Your task to perform on an android device: Search for flights from Sydney to Buenos aires Image 0: 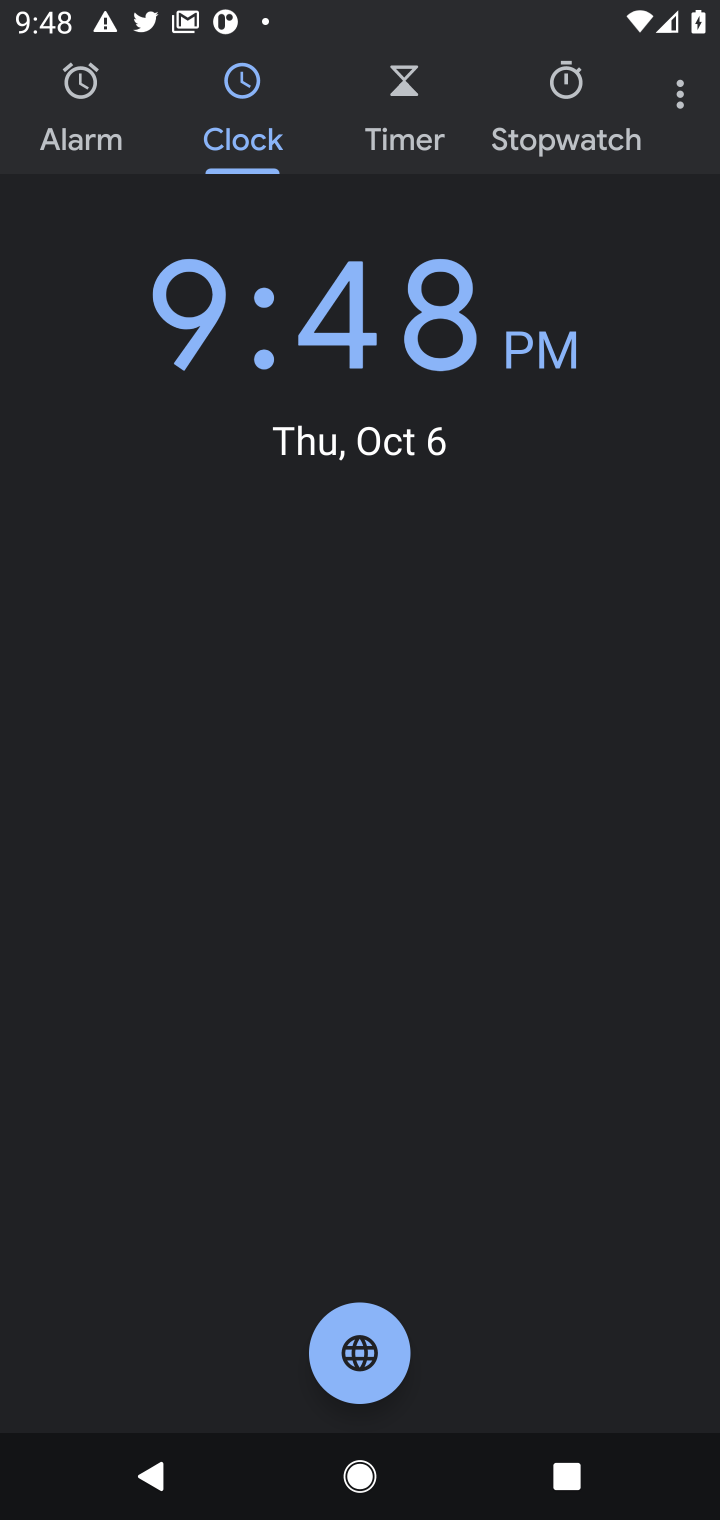
Step 0: press home button
Your task to perform on an android device: Search for flights from Sydney to Buenos aires Image 1: 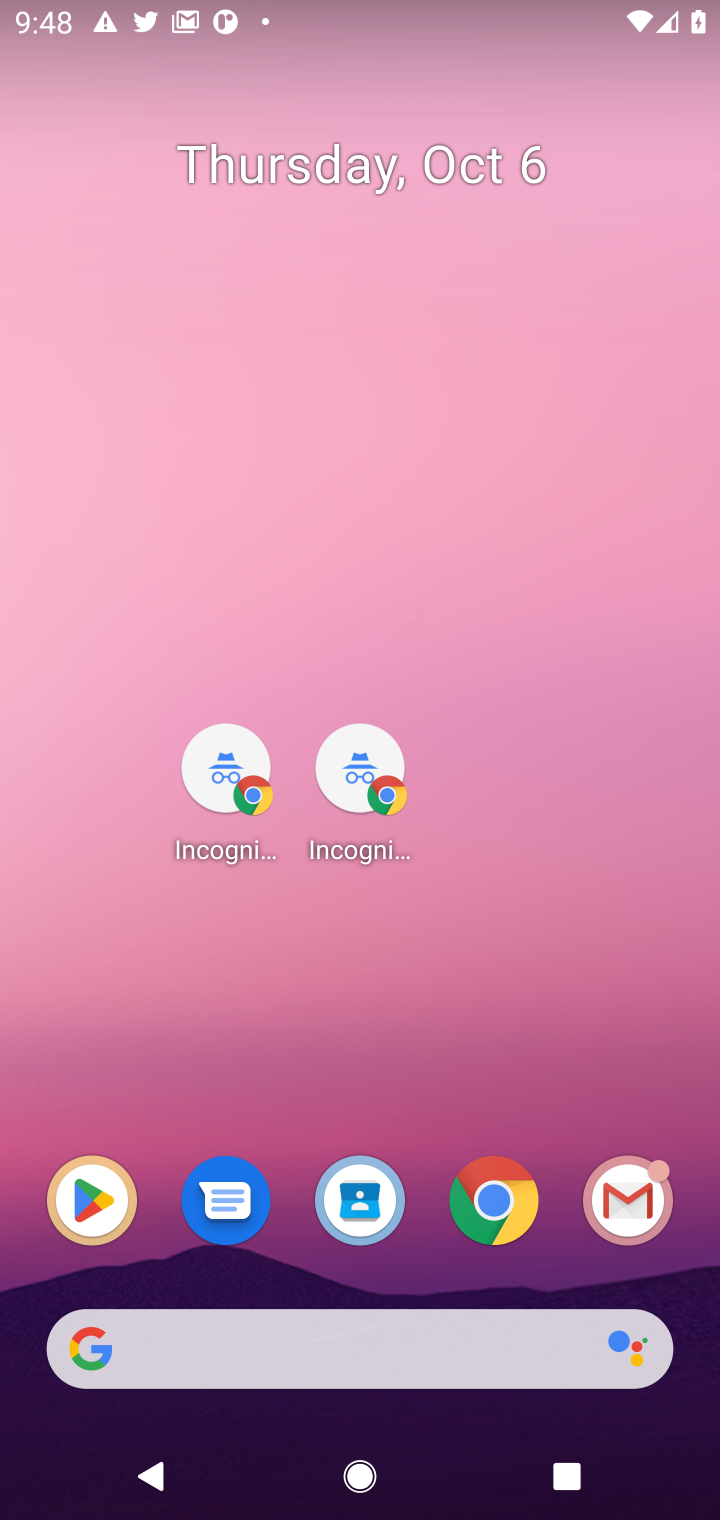
Step 1: click (517, 1206)
Your task to perform on an android device: Search for flights from Sydney to Buenos aires Image 2: 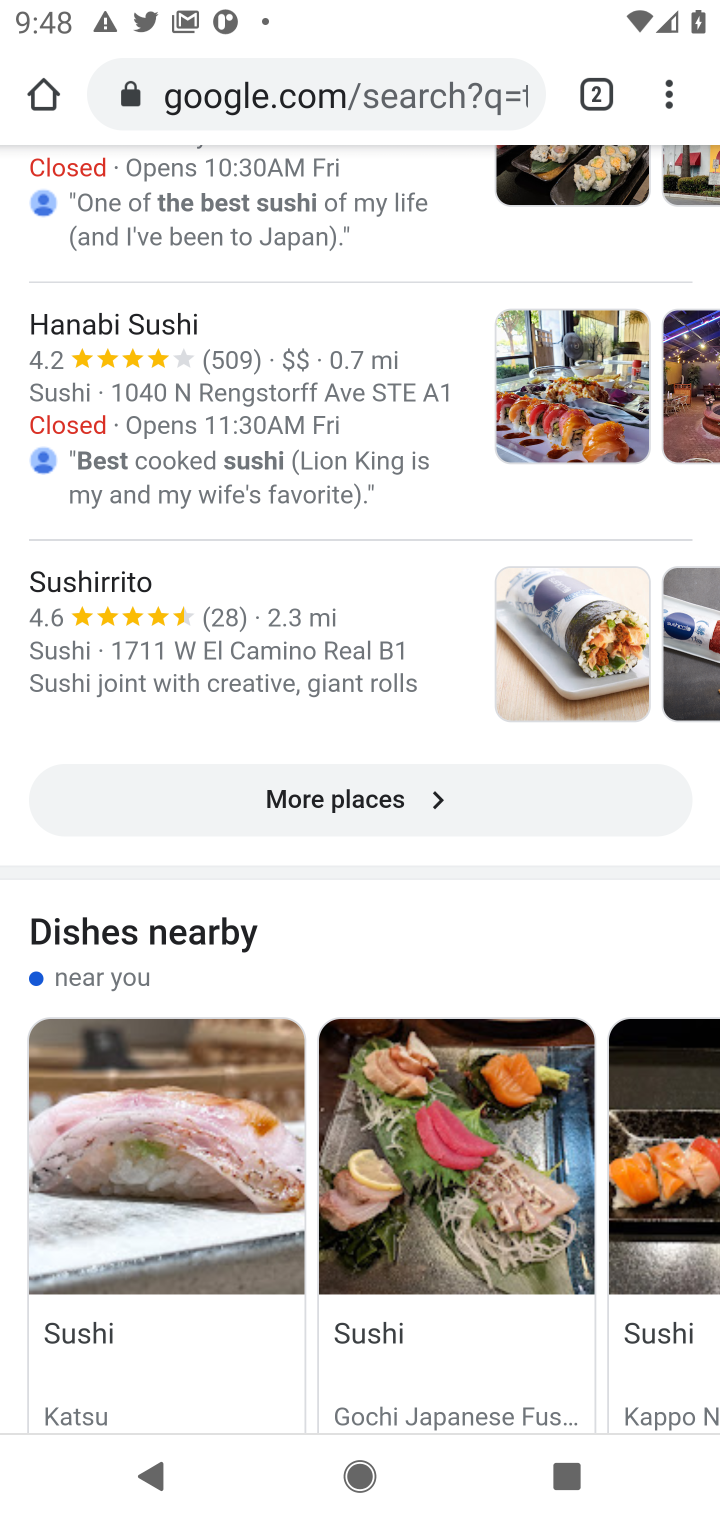
Step 2: click (240, 93)
Your task to perform on an android device: Search for flights from Sydney to Buenos aires Image 3: 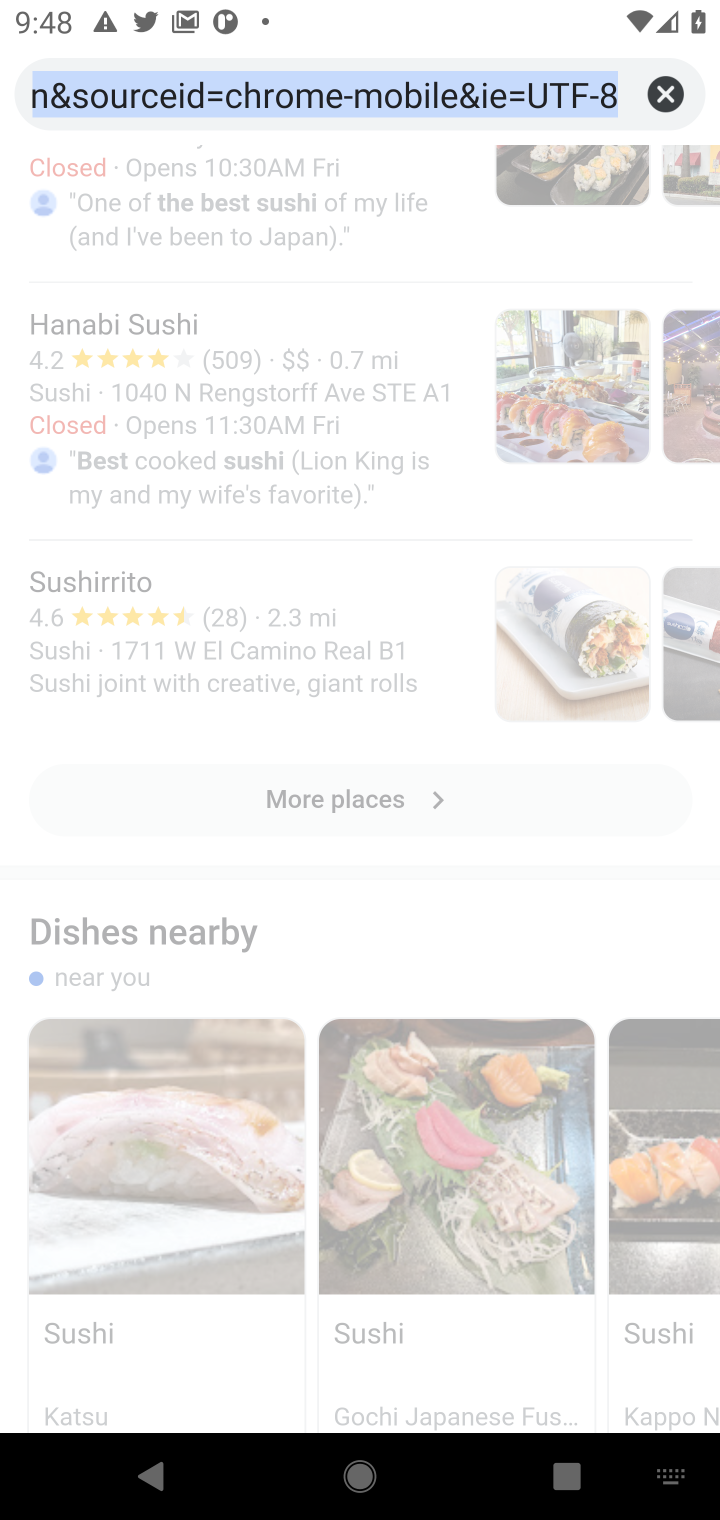
Step 3: click (665, 103)
Your task to perform on an android device: Search for flights from Sydney to Buenos aires Image 4: 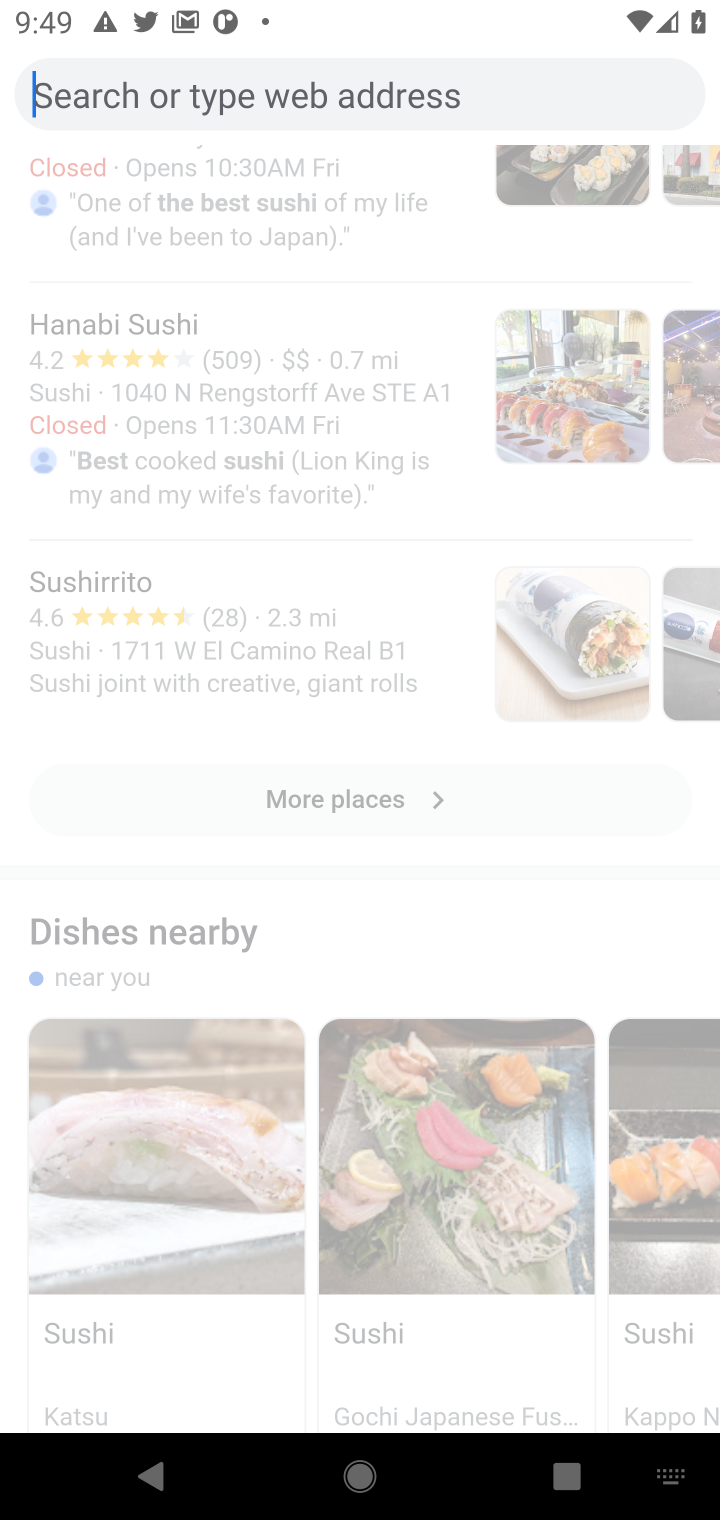
Step 4: type "flight from sydney to buenos aires"
Your task to perform on an android device: Search for flights from Sydney to Buenos aires Image 5: 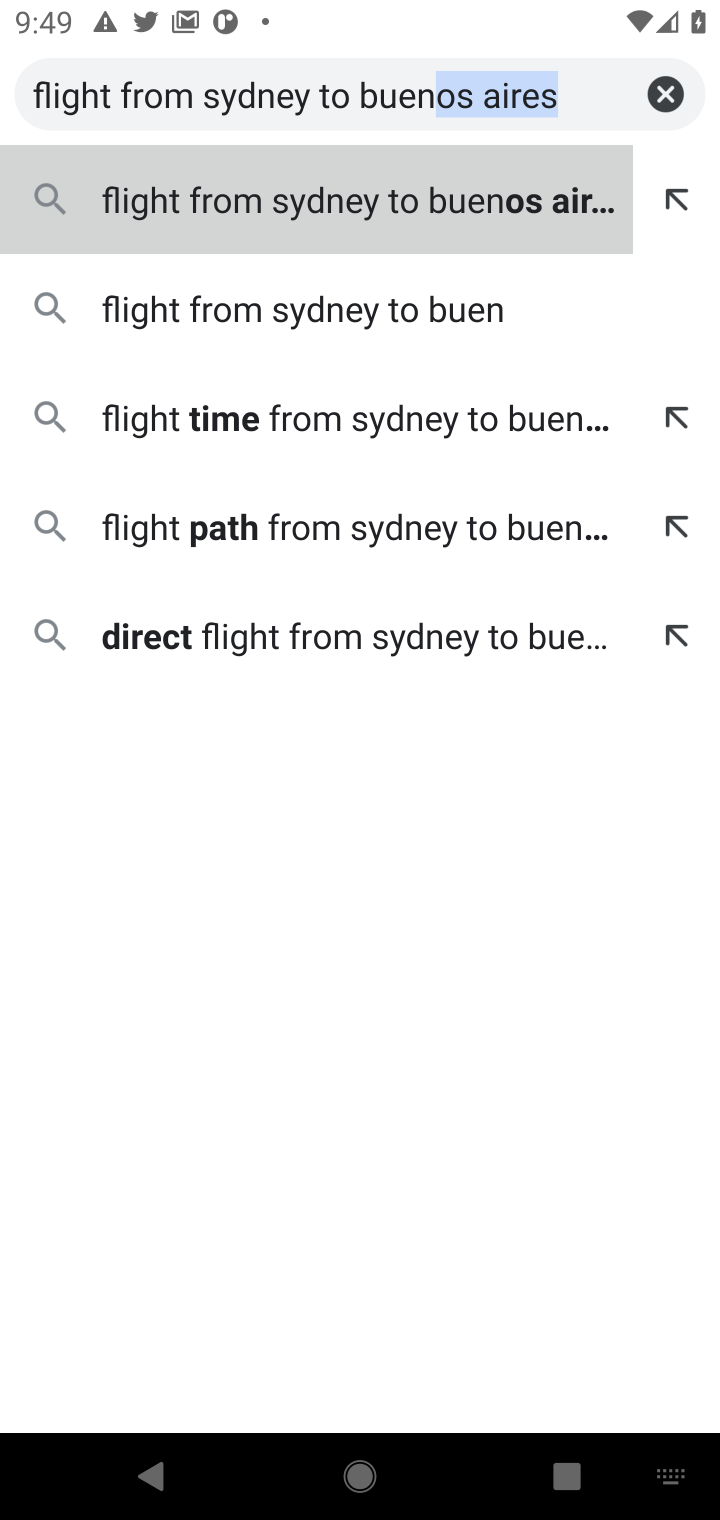
Step 5: click (394, 215)
Your task to perform on an android device: Search for flights from Sydney to Buenos aires Image 6: 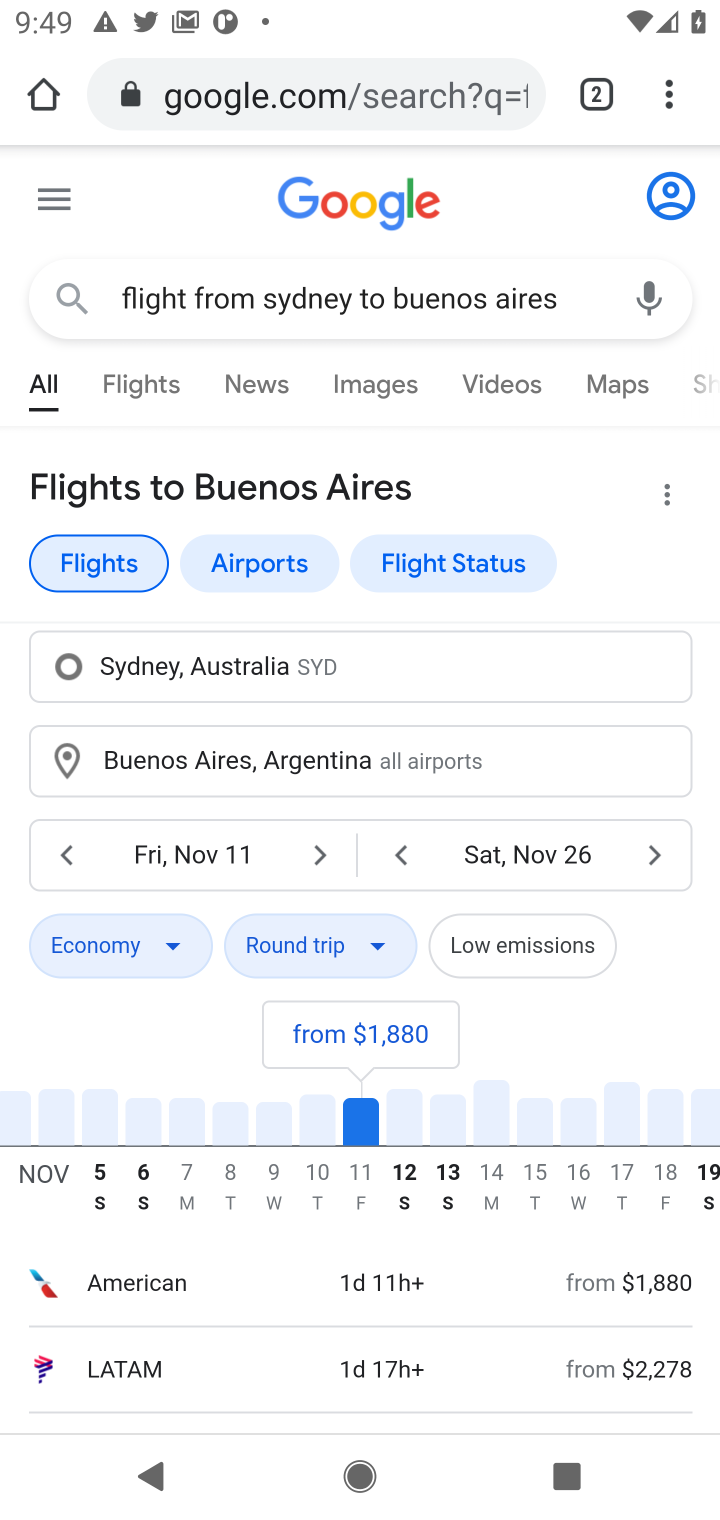
Step 6: click (107, 951)
Your task to perform on an android device: Search for flights from Sydney to Buenos aires Image 7: 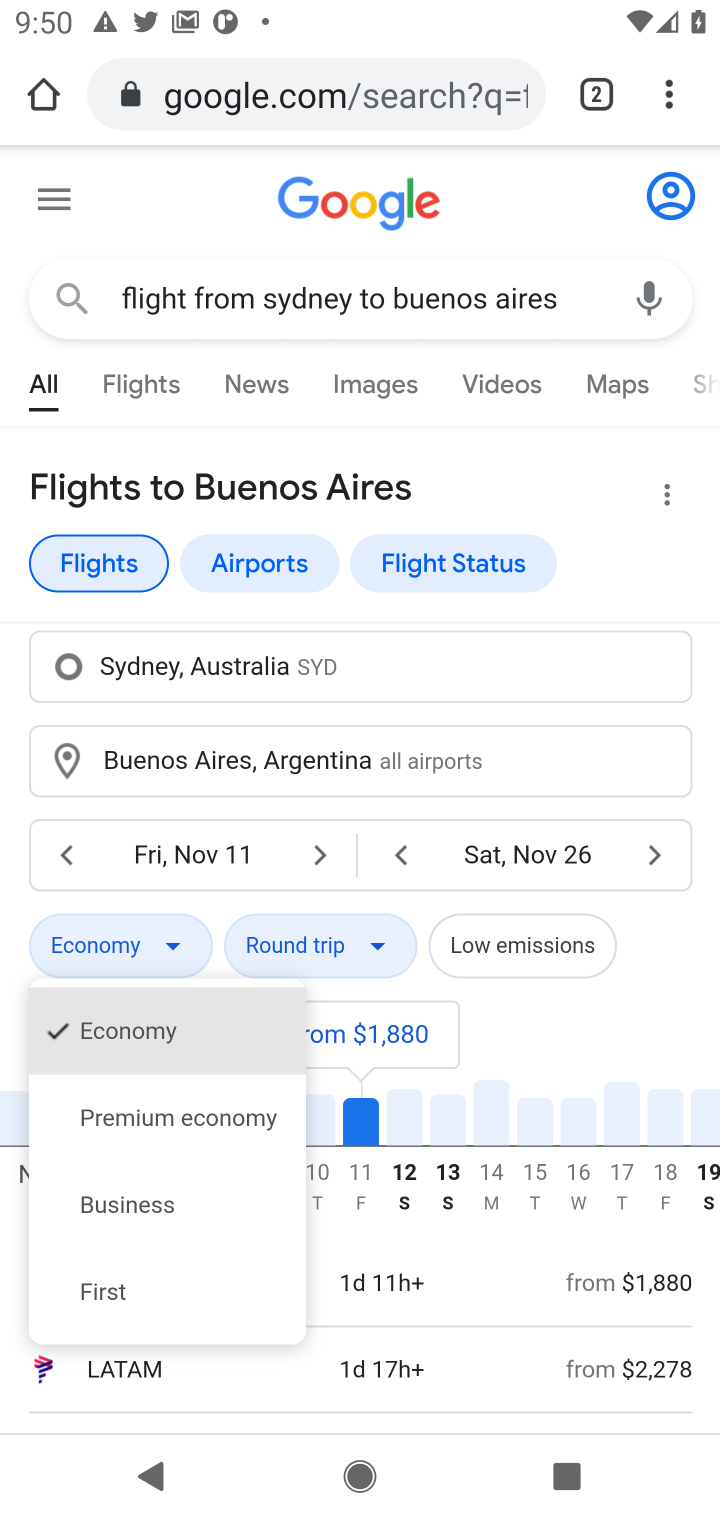
Step 7: click (124, 1030)
Your task to perform on an android device: Search for flights from Sydney to Buenos aires Image 8: 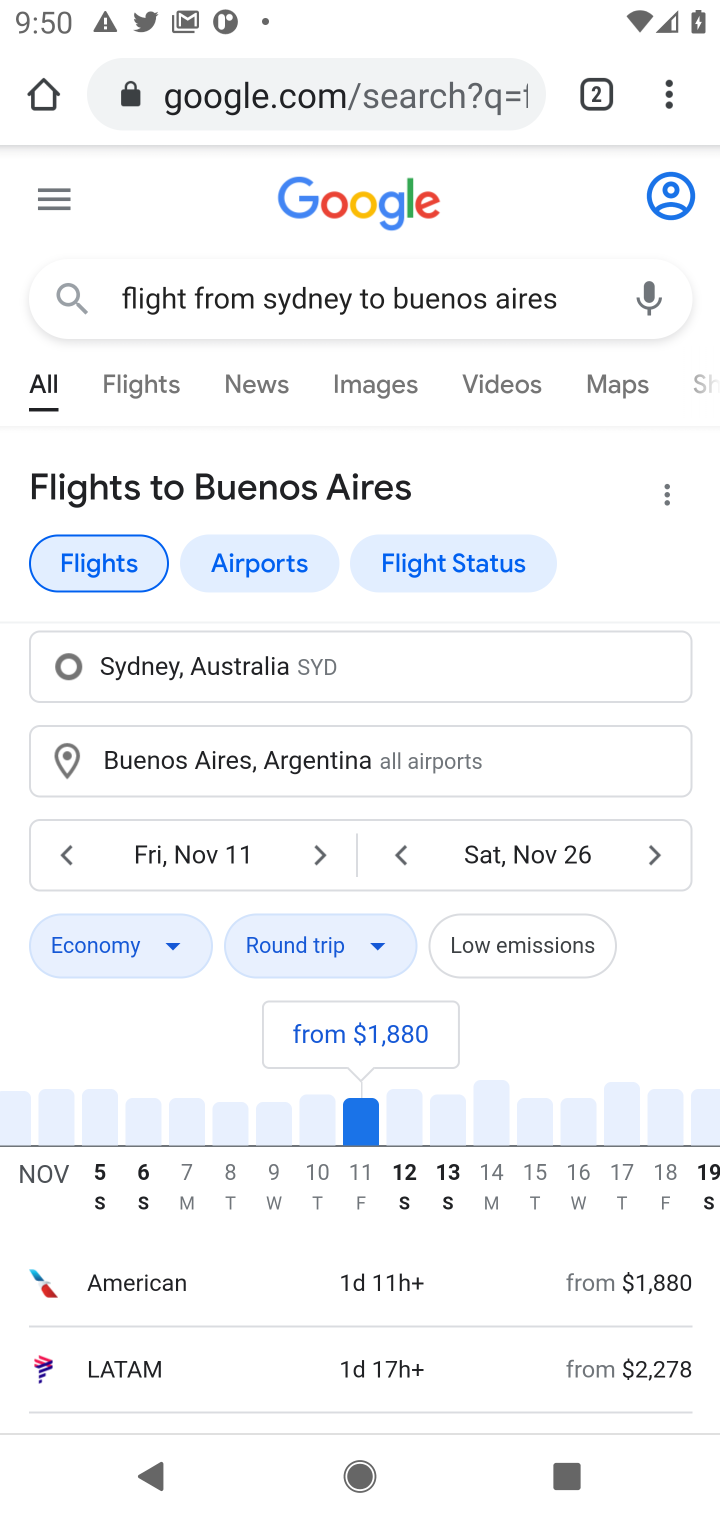
Step 8: drag from (452, 1017) to (540, 521)
Your task to perform on an android device: Search for flights from Sydney to Buenos aires Image 9: 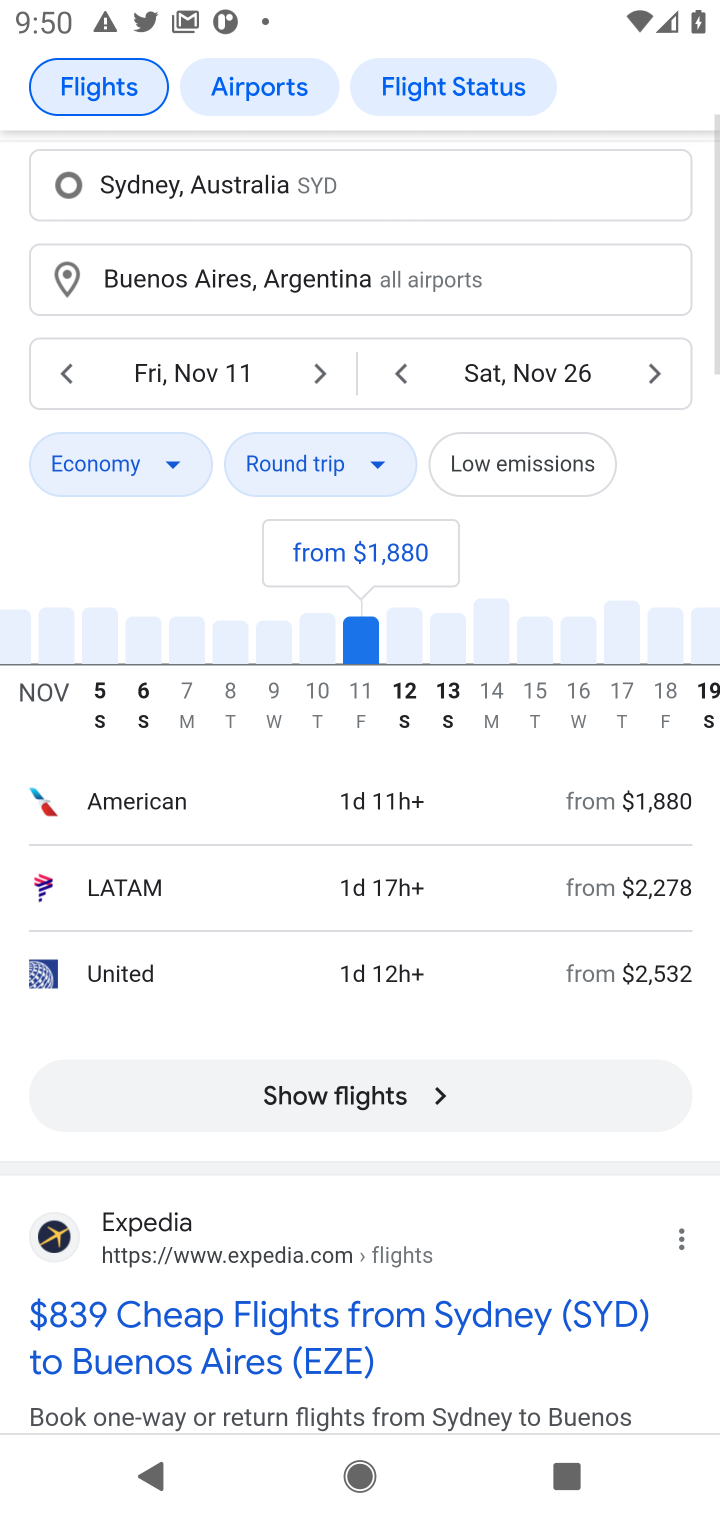
Step 9: drag from (484, 1192) to (553, 576)
Your task to perform on an android device: Search for flights from Sydney to Buenos aires Image 10: 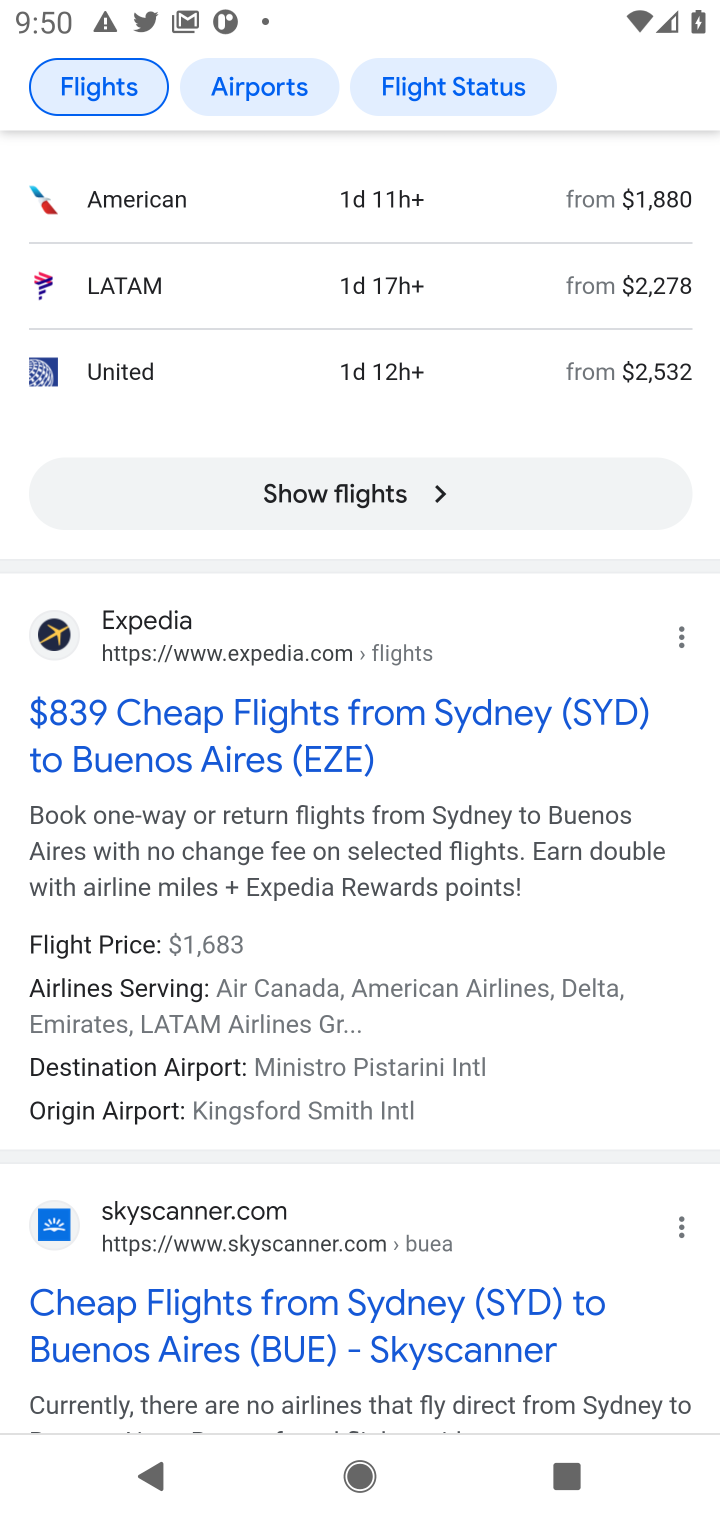
Step 10: drag from (287, 1173) to (342, 660)
Your task to perform on an android device: Search for flights from Sydney to Buenos aires Image 11: 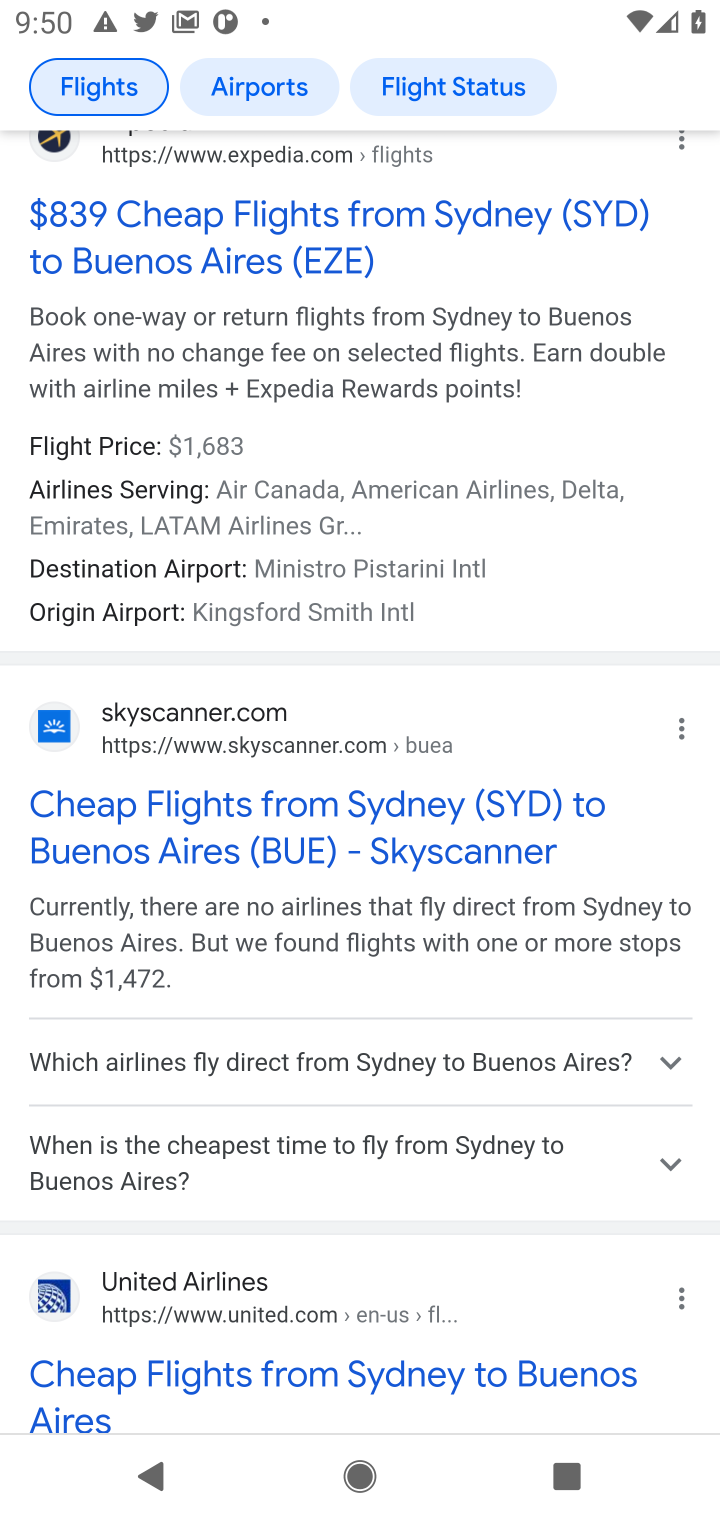
Step 11: click (172, 598)
Your task to perform on an android device: Search for flights from Sydney to Buenos aires Image 12: 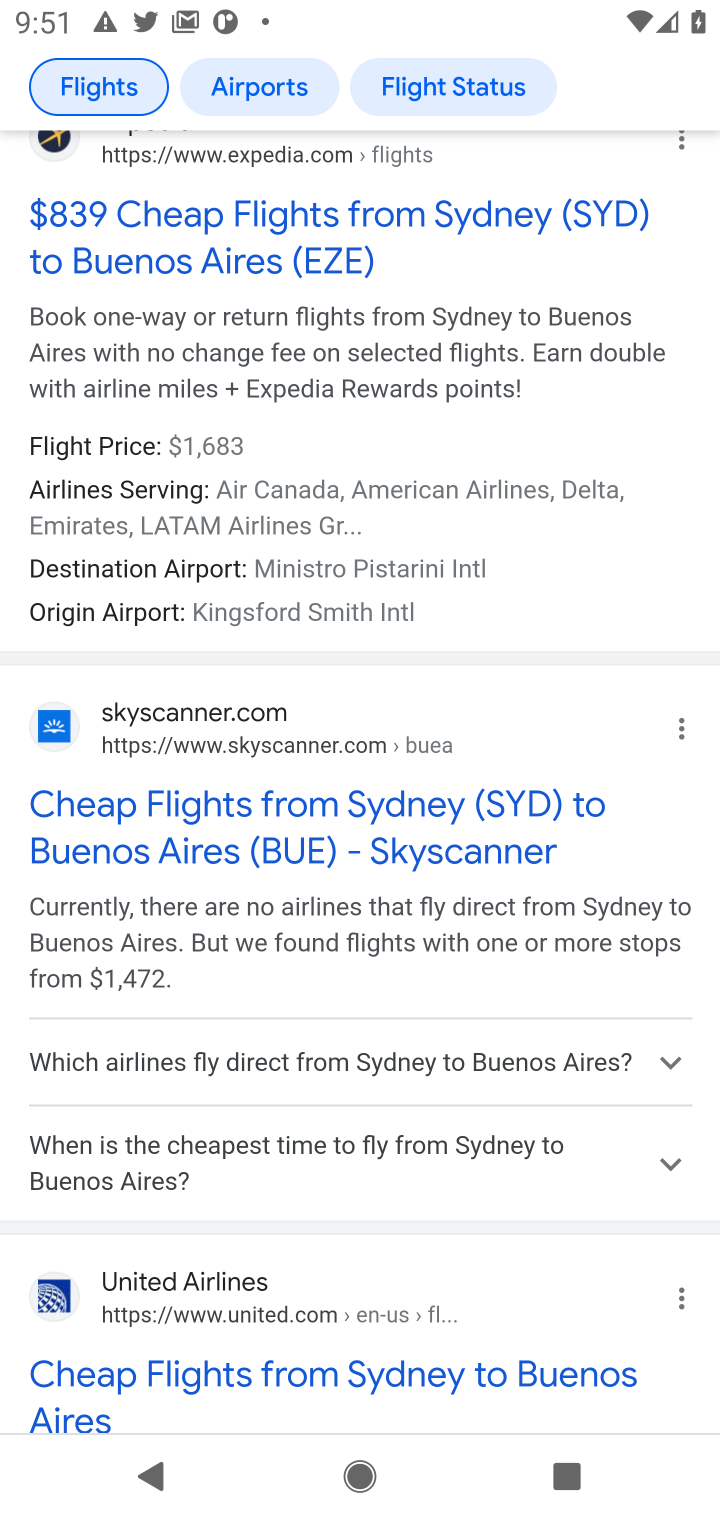
Step 12: click (275, 805)
Your task to perform on an android device: Search for flights from Sydney to Buenos aires Image 13: 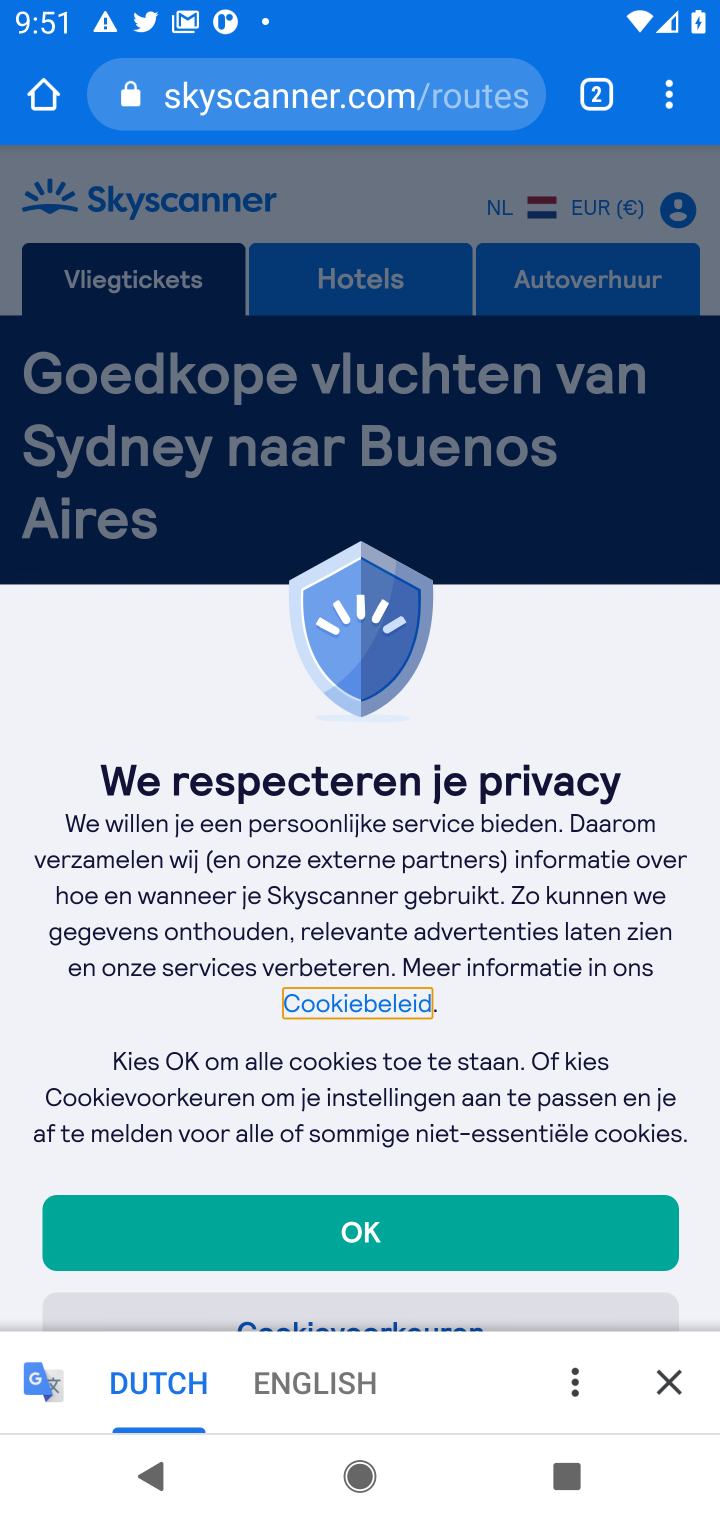
Step 13: click (431, 1242)
Your task to perform on an android device: Search for flights from Sydney to Buenos aires Image 14: 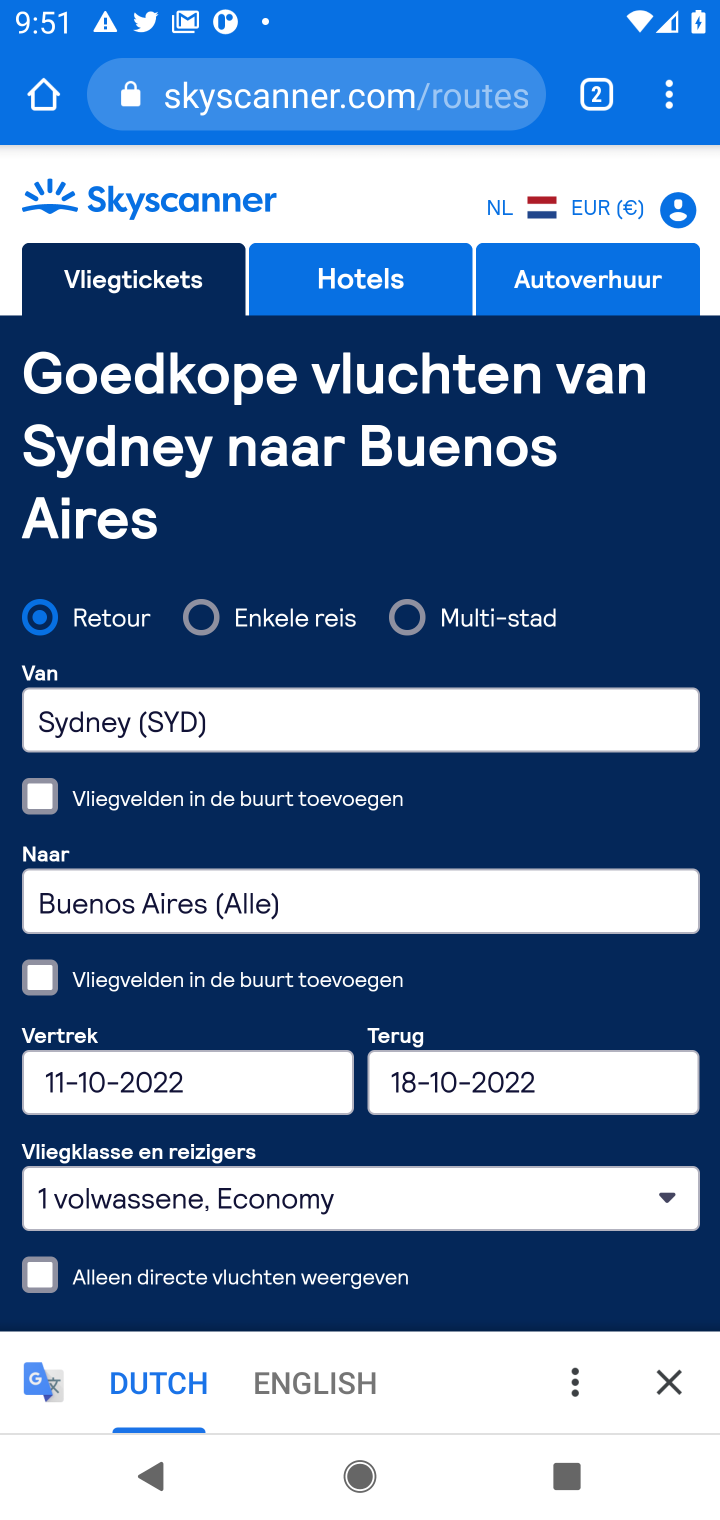
Step 14: drag from (531, 1160) to (543, 749)
Your task to perform on an android device: Search for flights from Sydney to Buenos aires Image 15: 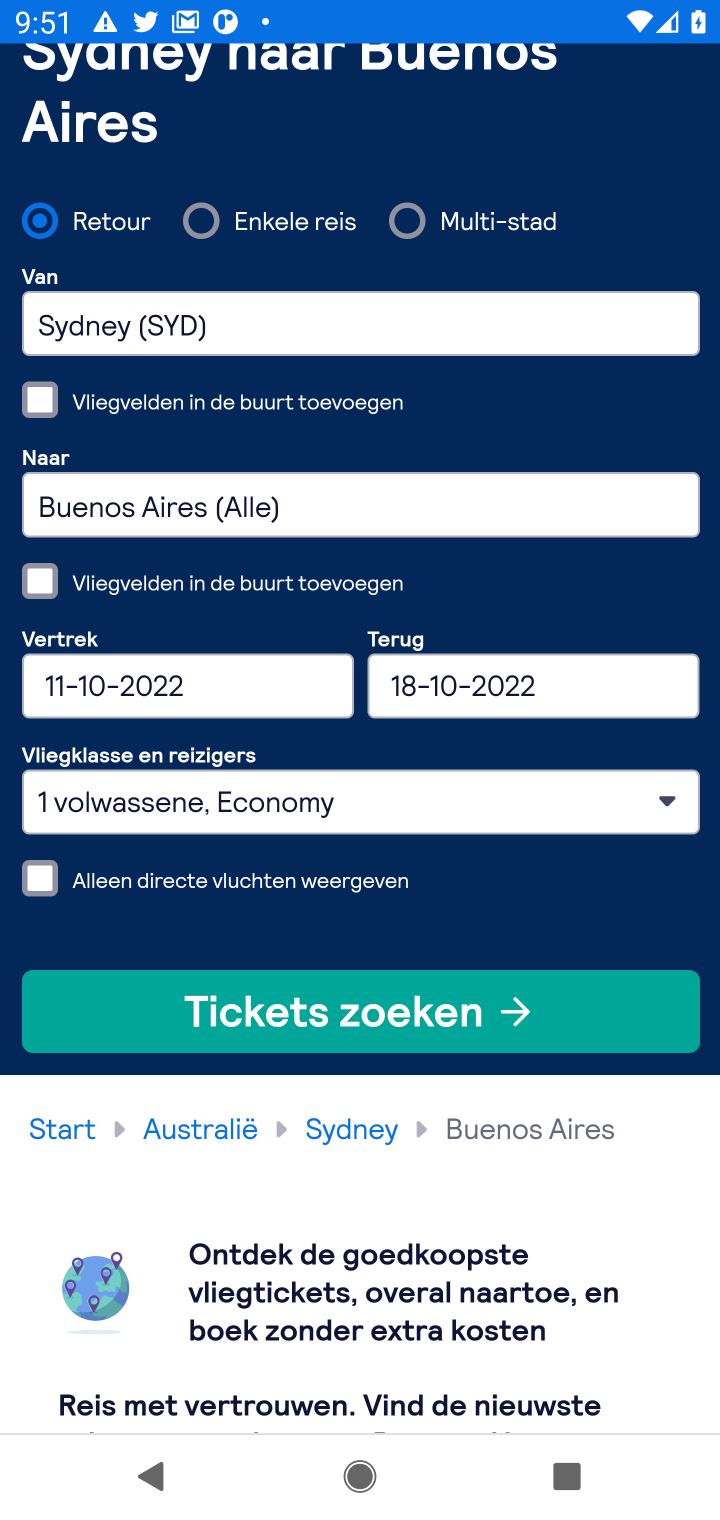
Step 15: click (186, 1016)
Your task to perform on an android device: Search for flights from Sydney to Buenos aires Image 16: 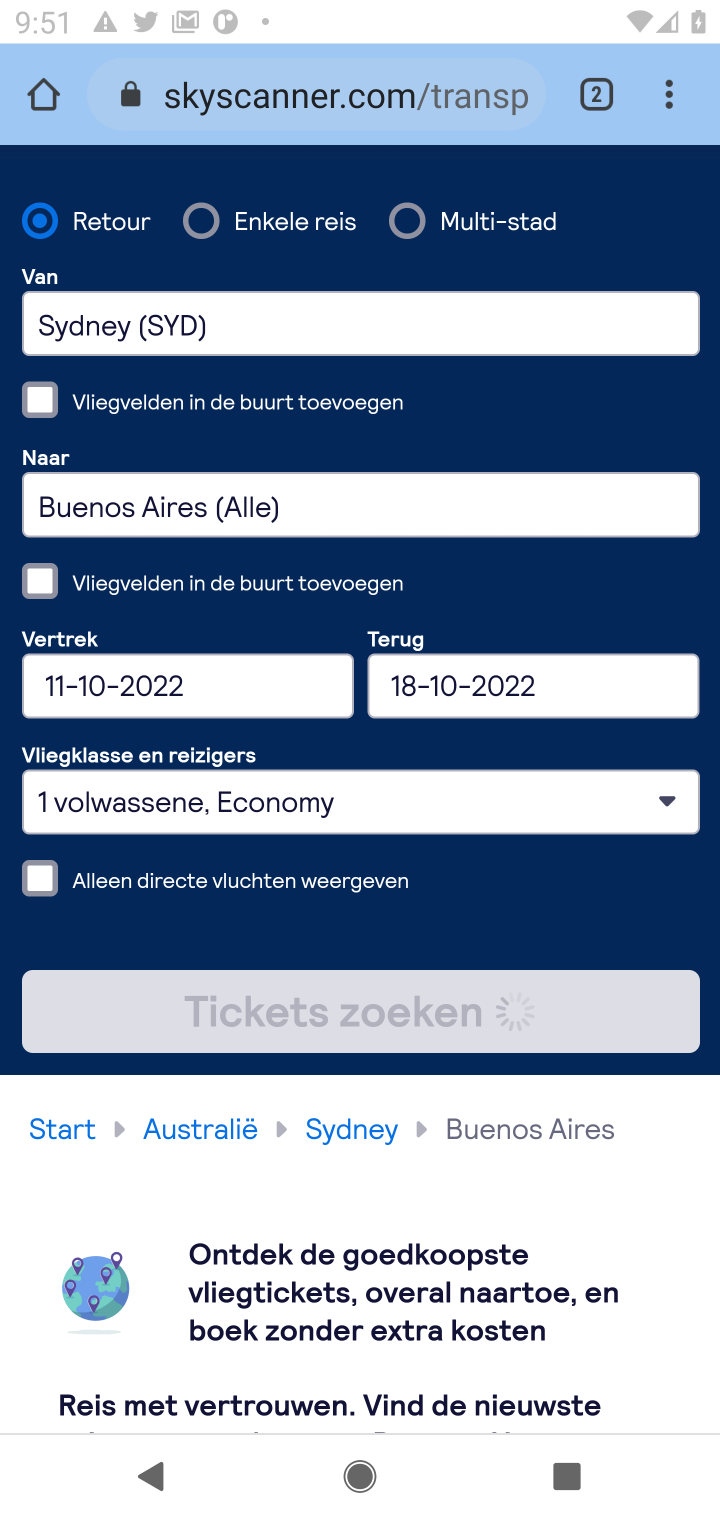
Step 16: type ""
Your task to perform on an android device: Search for flights from Sydney to Buenos aires Image 17: 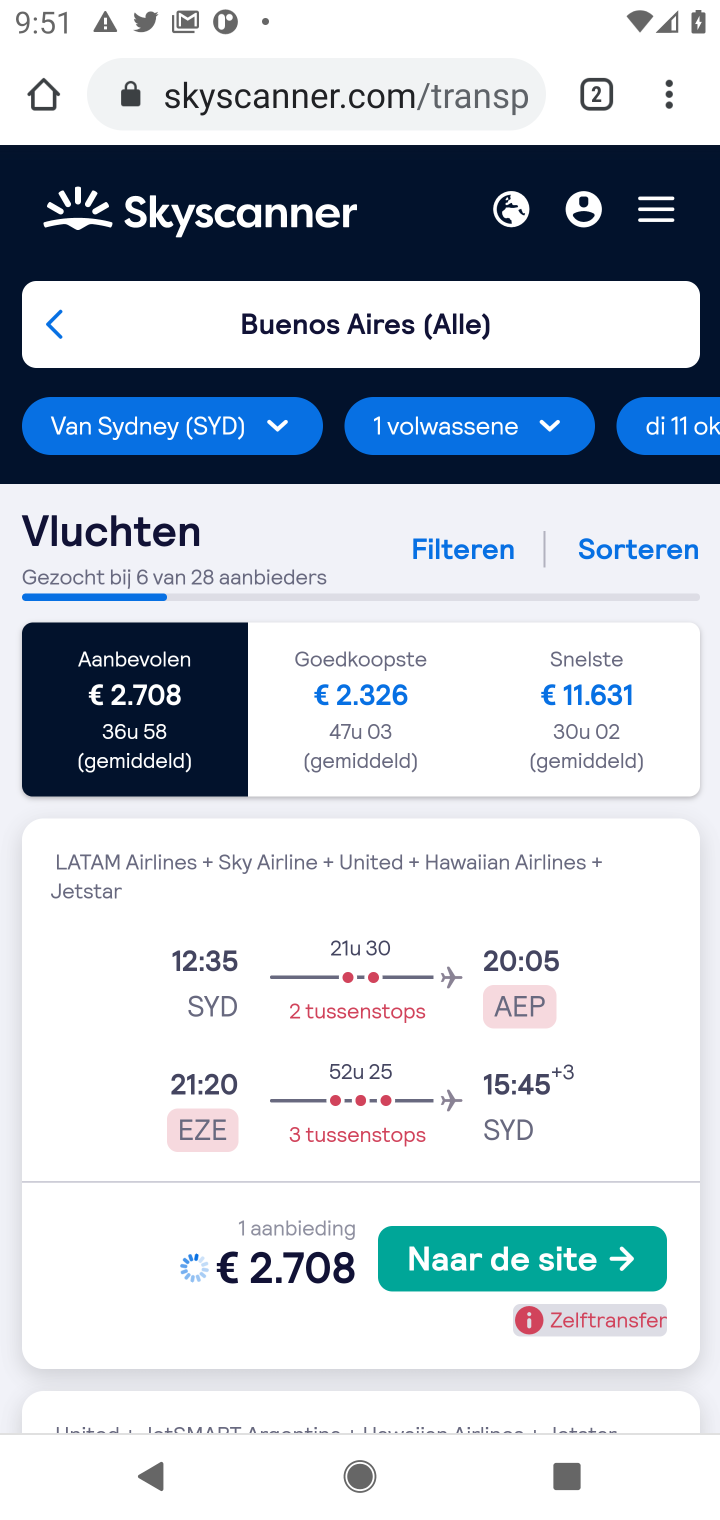
Step 17: drag from (308, 1047) to (409, 625)
Your task to perform on an android device: Search for flights from Sydney to Buenos aires Image 18: 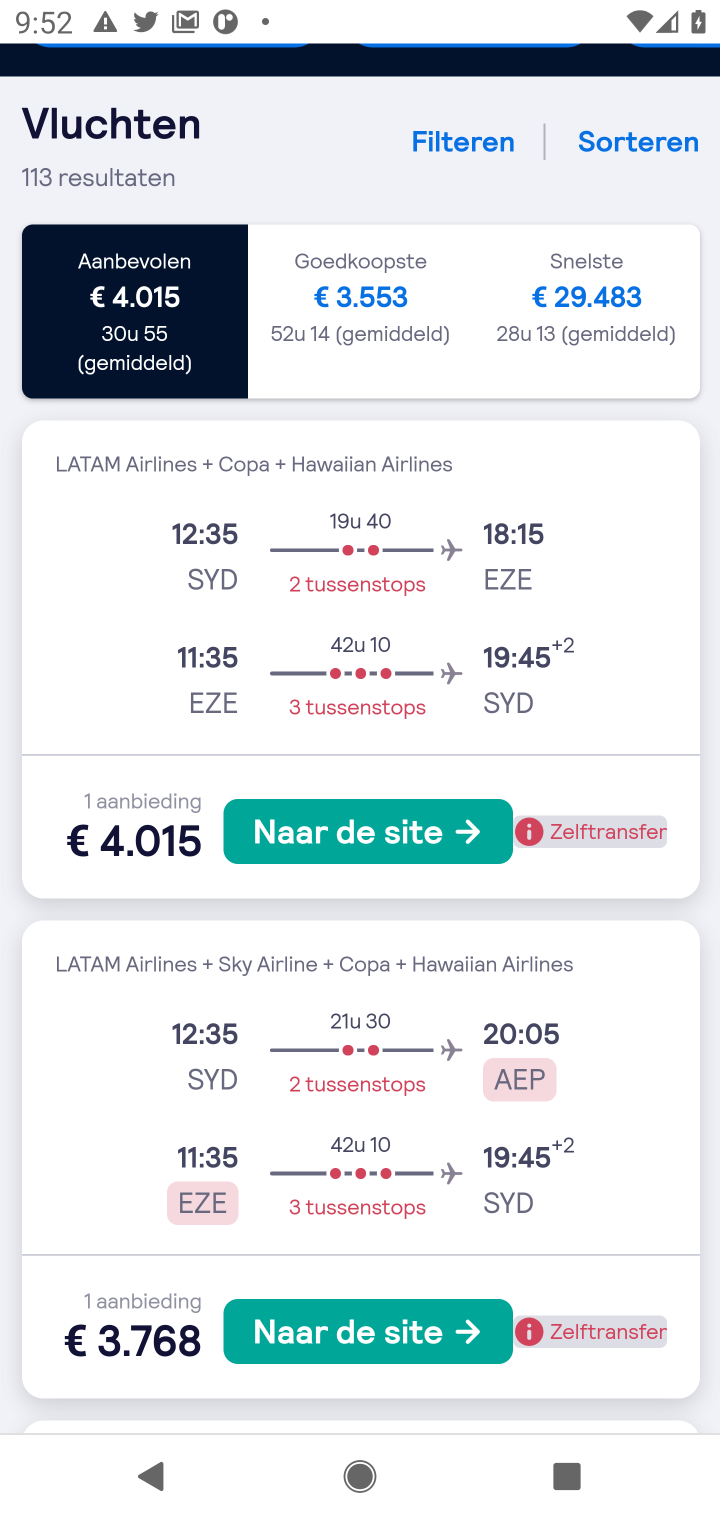
Step 18: press home button
Your task to perform on an android device: Search for flights from Sydney to Buenos aires Image 19: 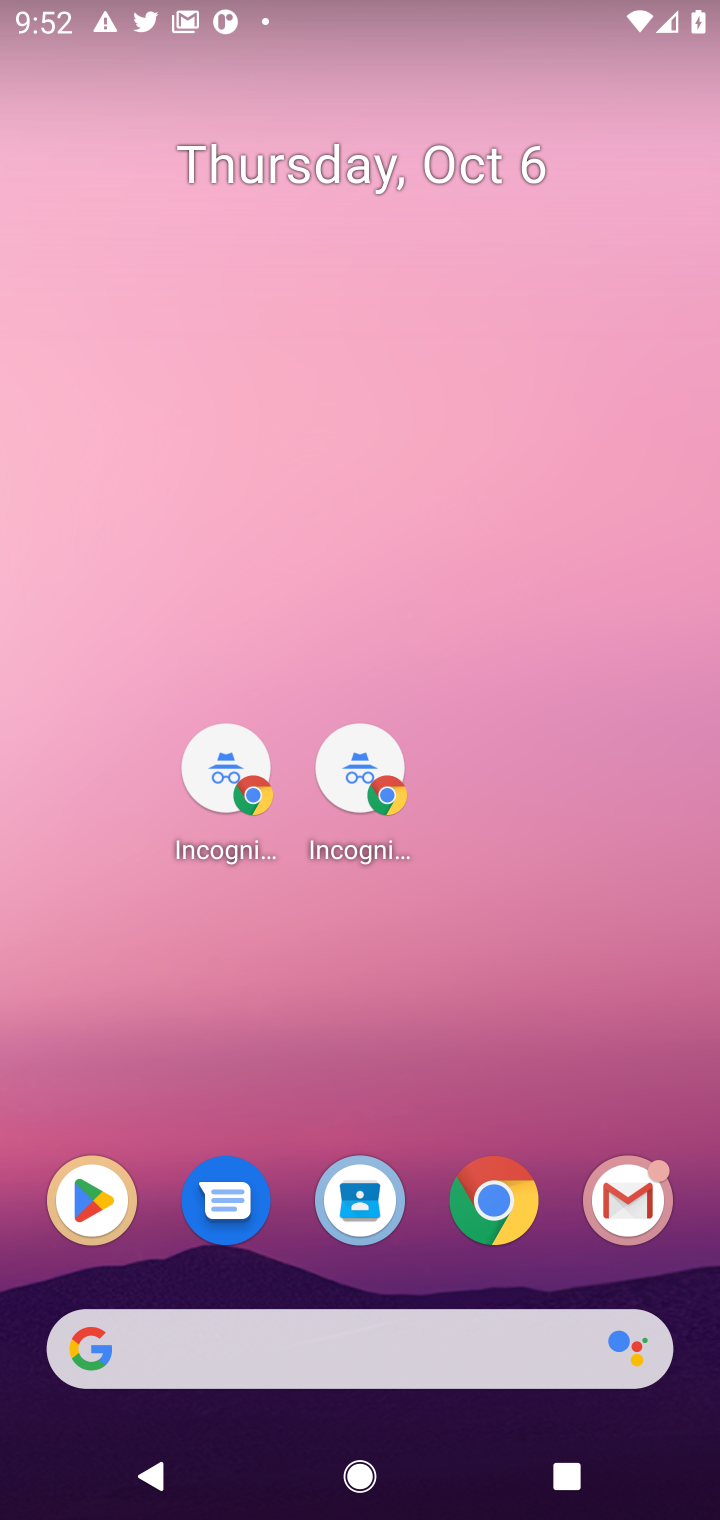
Step 19: press back button
Your task to perform on an android device: Search for flights from Sydney to Buenos aires Image 20: 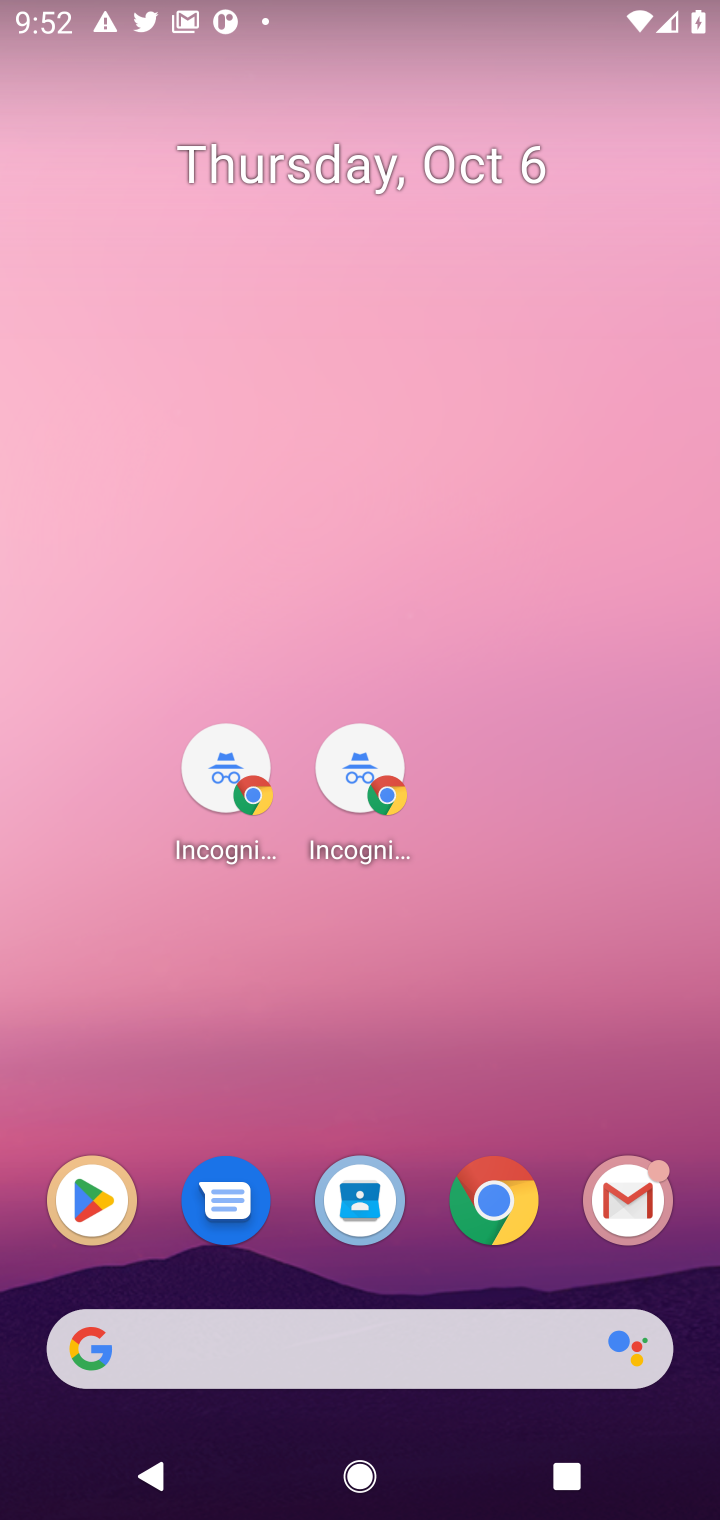
Step 20: click (519, 1205)
Your task to perform on an android device: Search for flights from Sydney to Buenos aires Image 21: 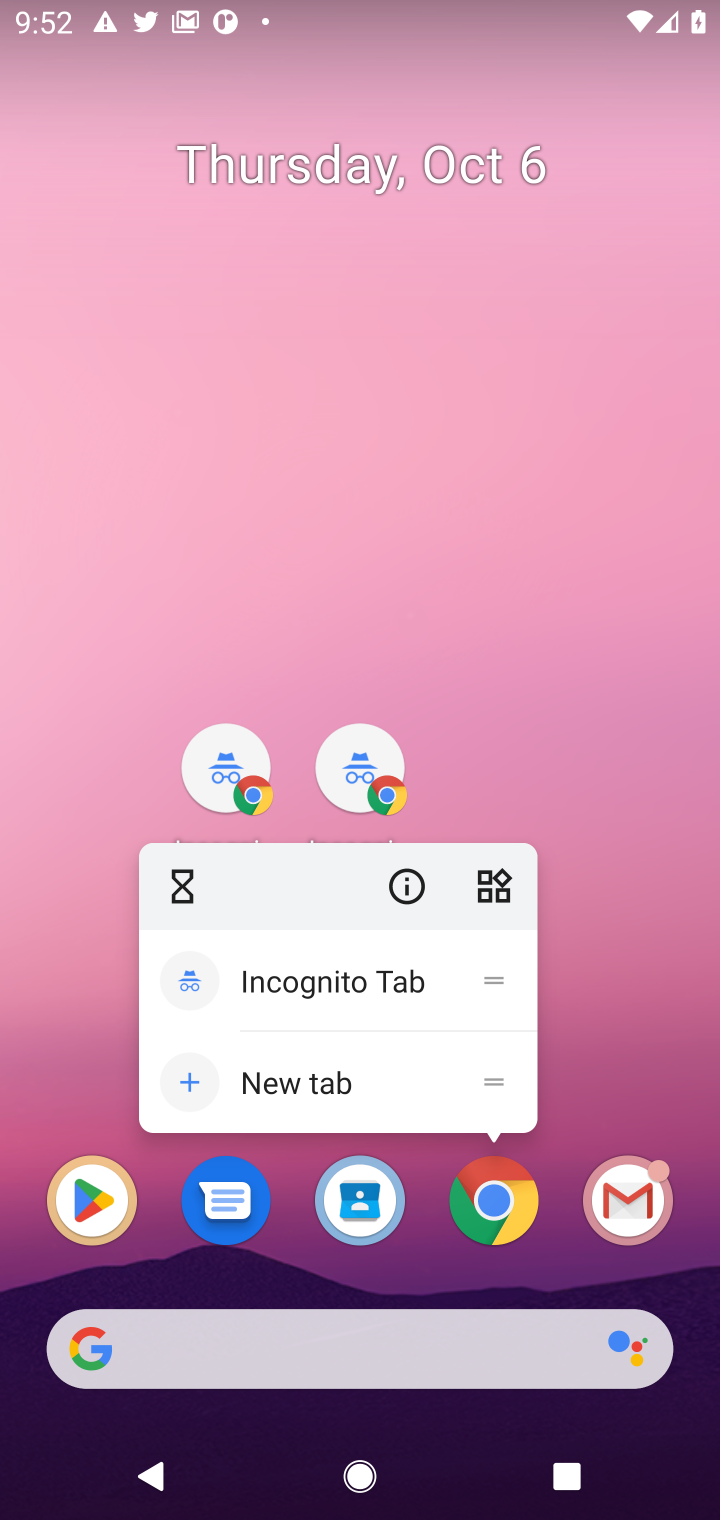
Step 21: press back button
Your task to perform on an android device: Search for flights from Sydney to Buenos aires Image 22: 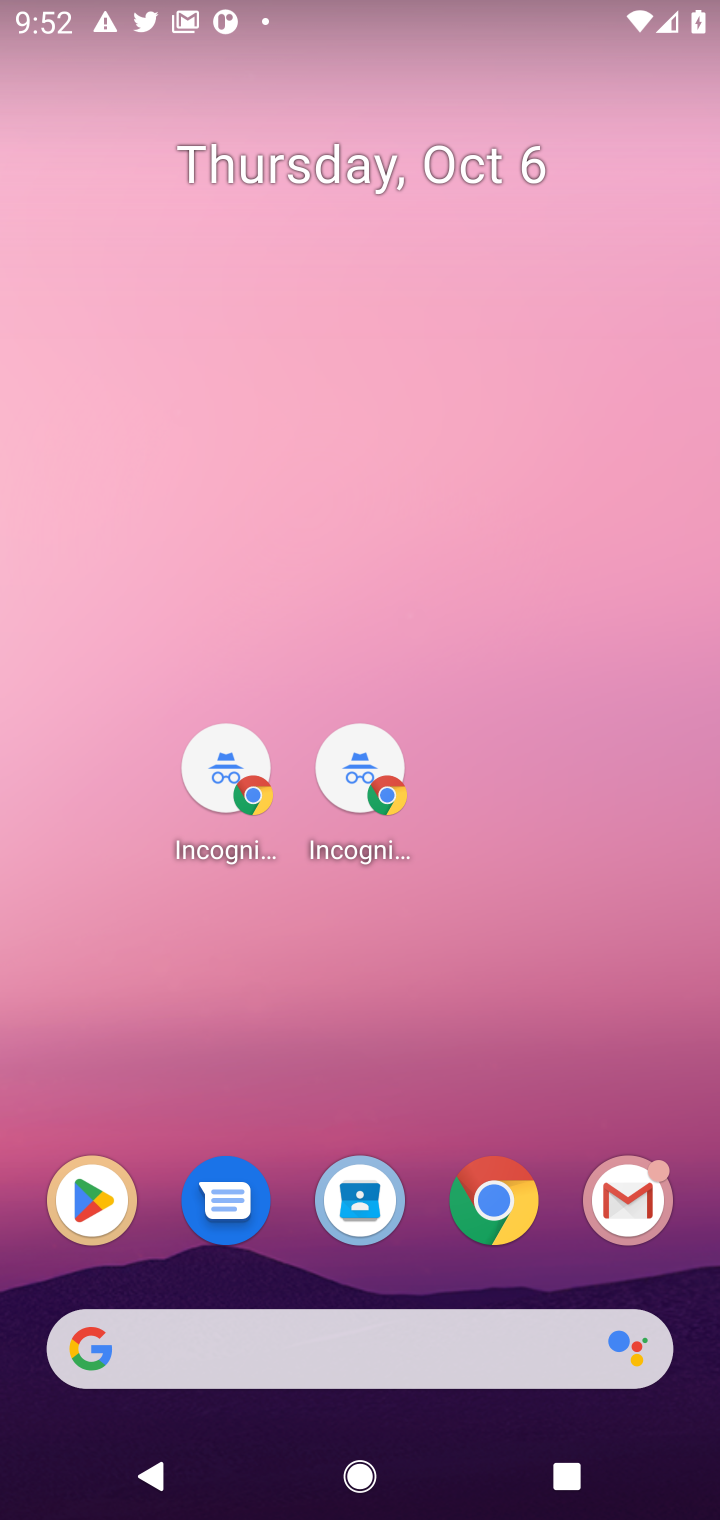
Step 22: click (476, 1201)
Your task to perform on an android device: Search for flights from Sydney to Buenos aires Image 23: 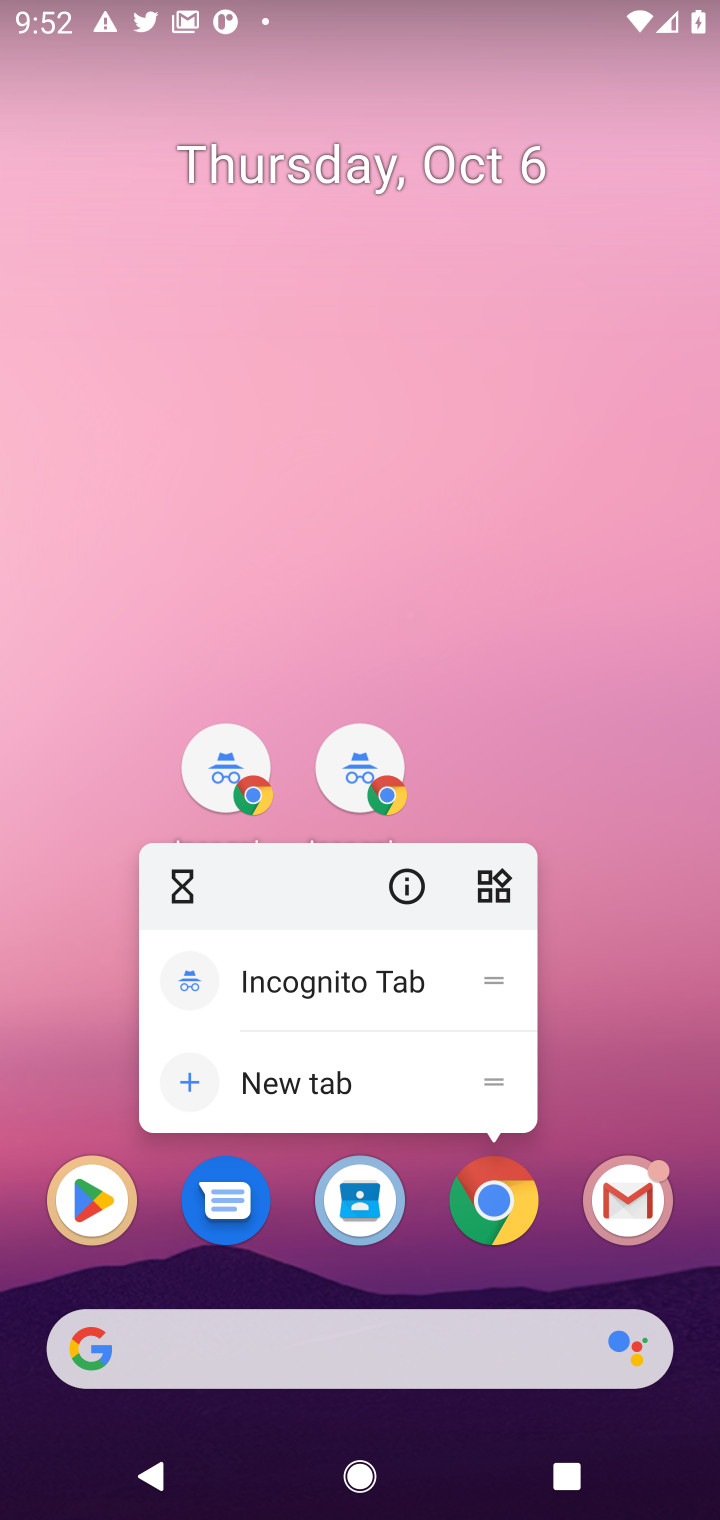
Step 23: press back button
Your task to perform on an android device: Search for flights from Sydney to Buenos aires Image 24: 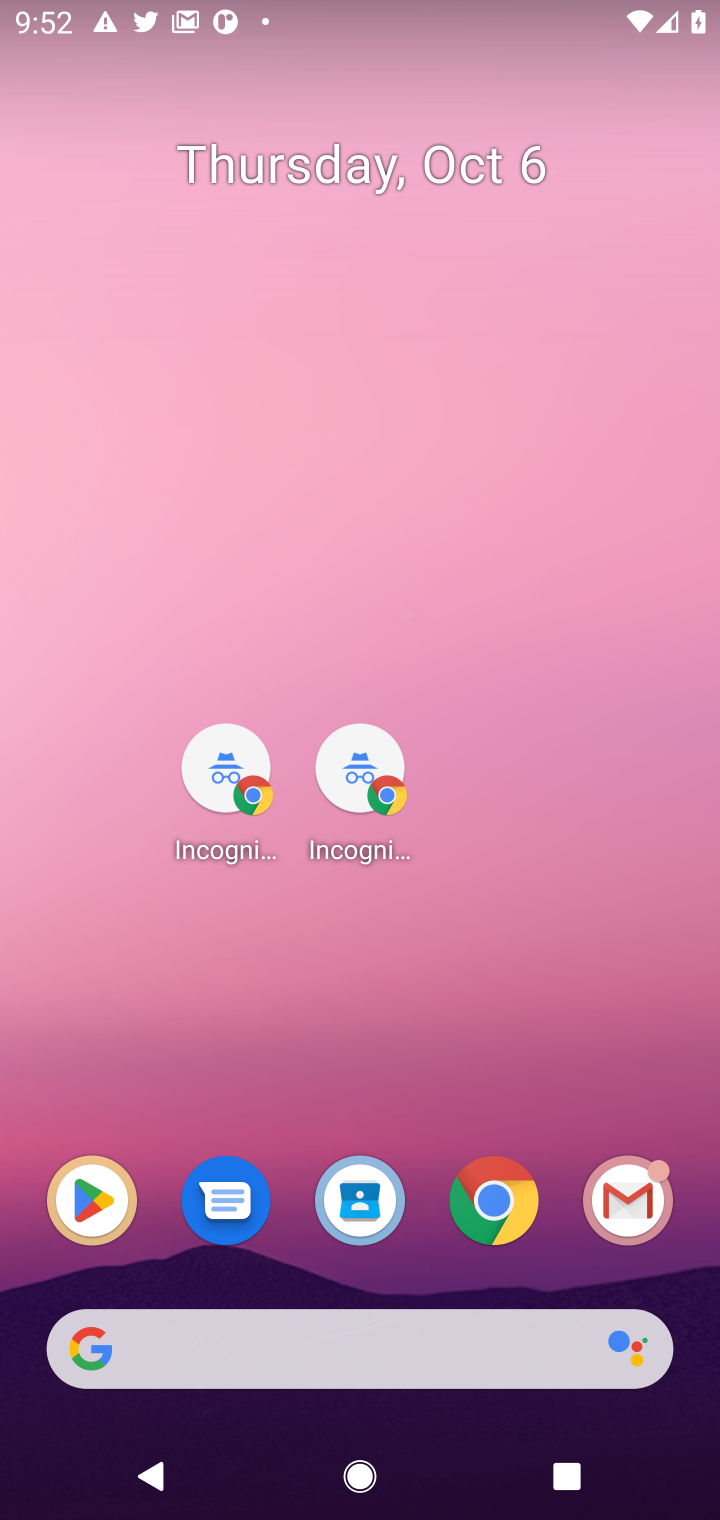
Step 24: click (510, 1233)
Your task to perform on an android device: Search for flights from Sydney to Buenos aires Image 25: 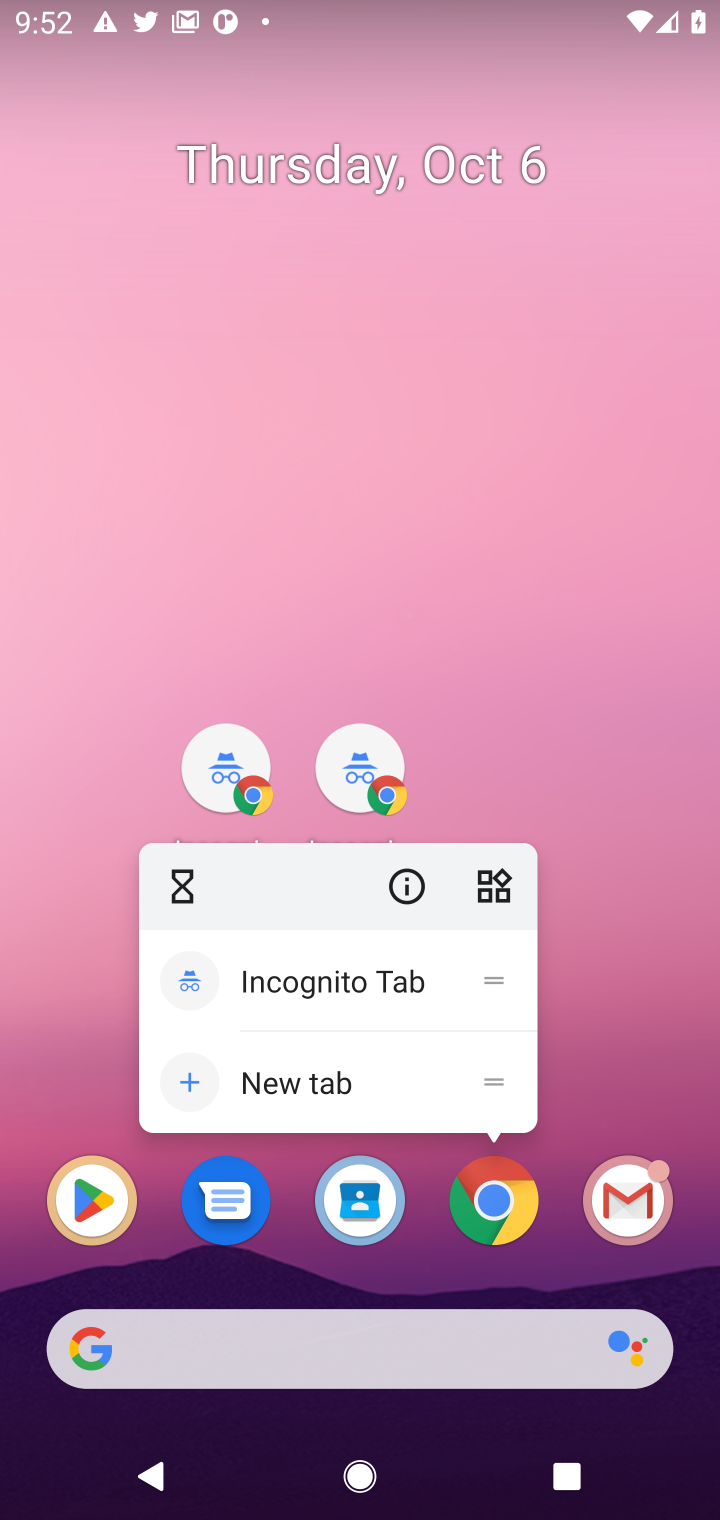
Step 25: press back button
Your task to perform on an android device: Search for flights from Sydney to Buenos aires Image 26: 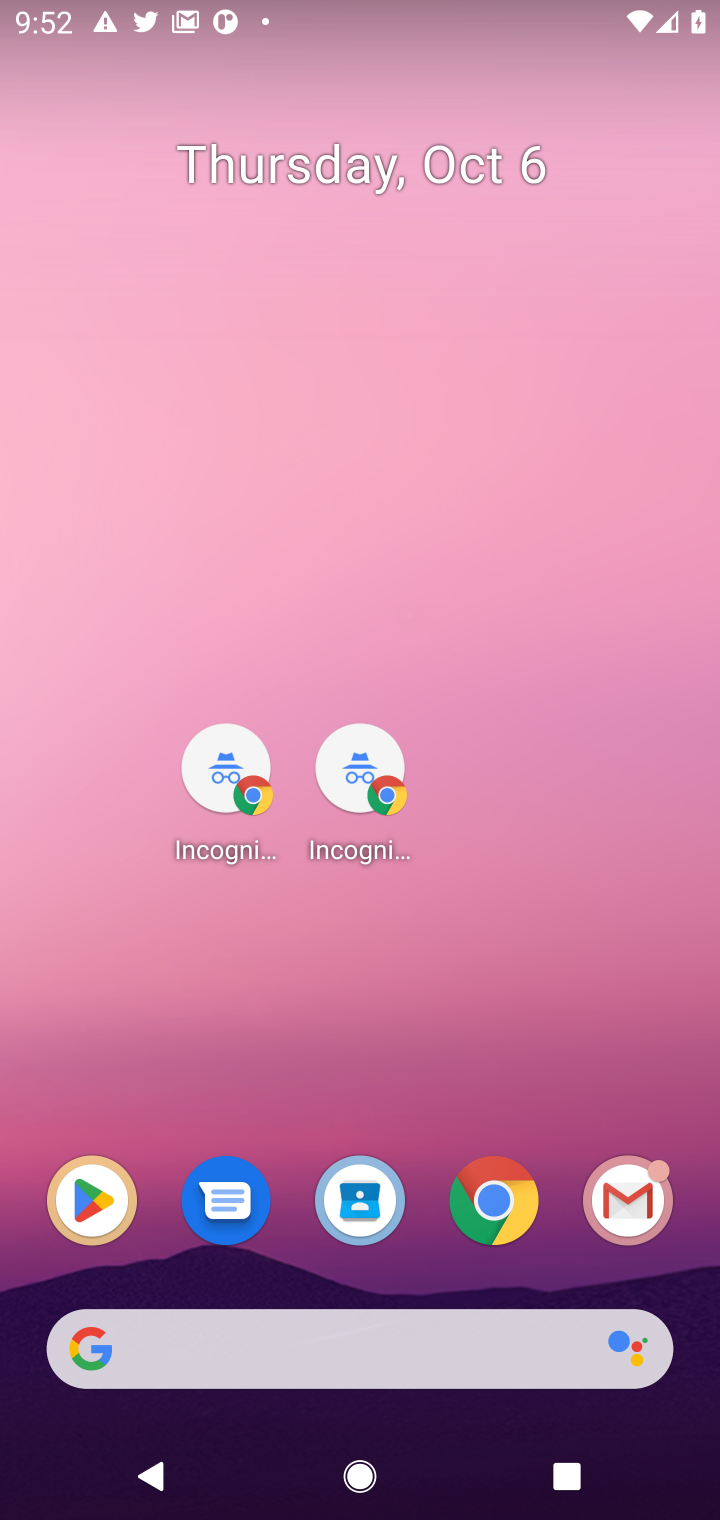
Step 26: click (500, 1210)
Your task to perform on an android device: Search for flights from Sydney to Buenos aires Image 27: 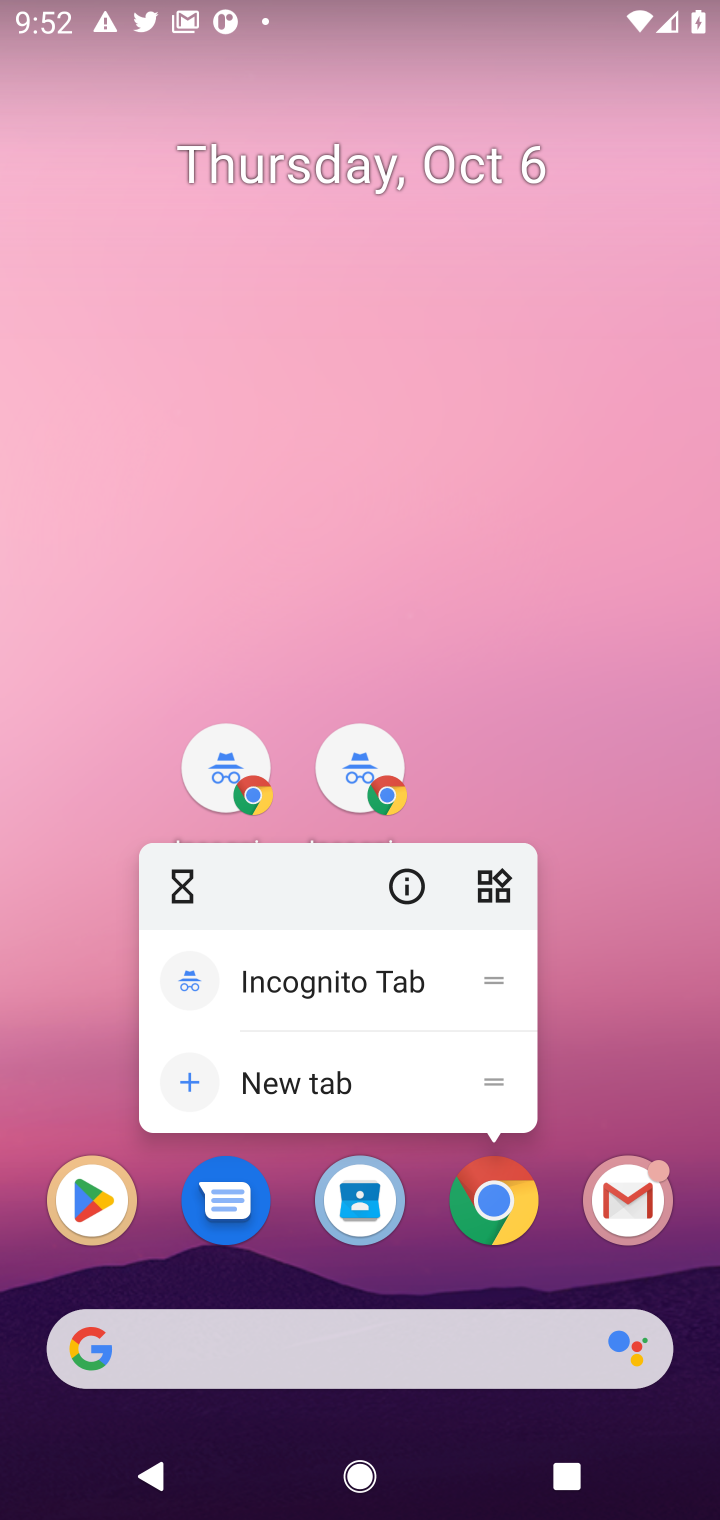
Step 27: press back button
Your task to perform on an android device: Search for flights from Sydney to Buenos aires Image 28: 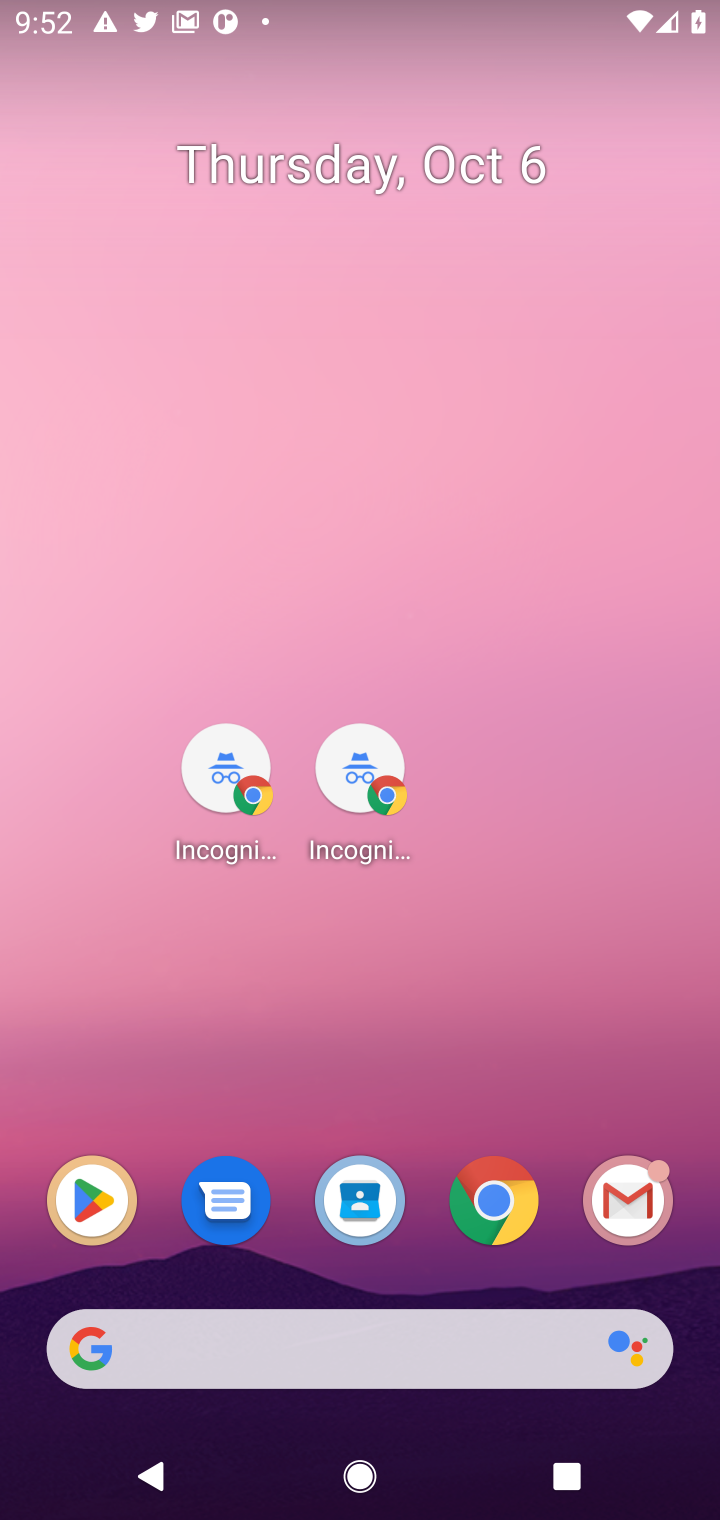
Step 28: press back button
Your task to perform on an android device: Search for flights from Sydney to Buenos aires Image 29: 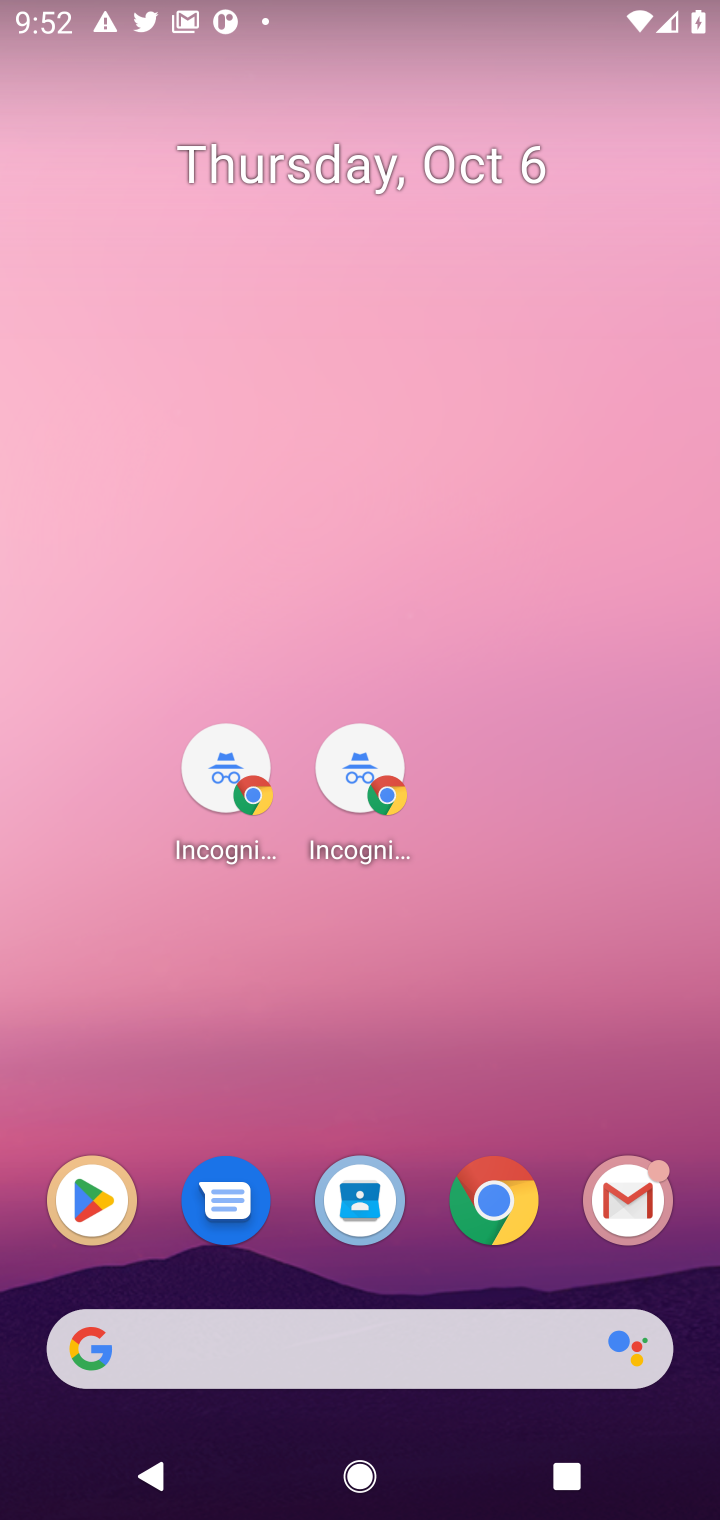
Step 29: press home button
Your task to perform on an android device: Search for flights from Sydney to Buenos aires Image 30: 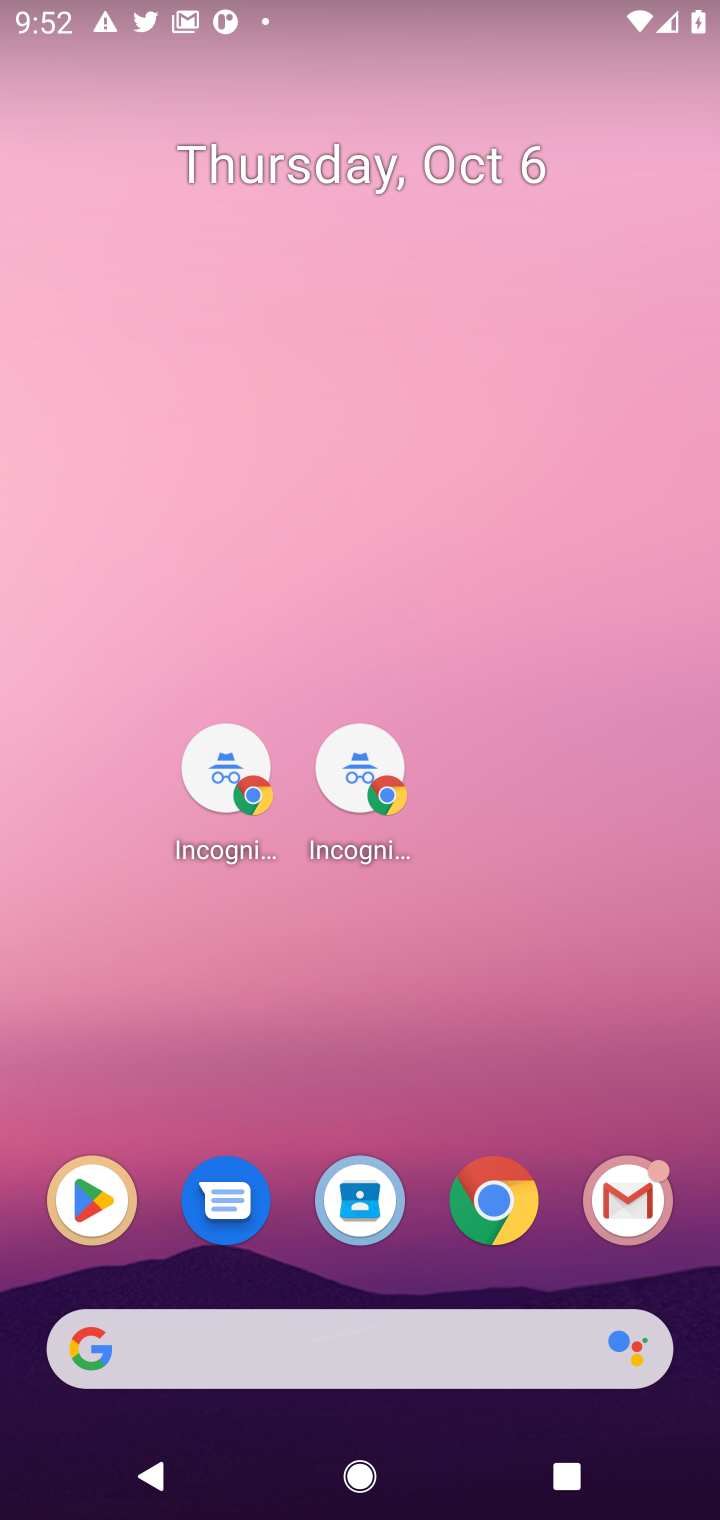
Step 30: press back button
Your task to perform on an android device: Search for flights from Sydney to Buenos aires Image 31: 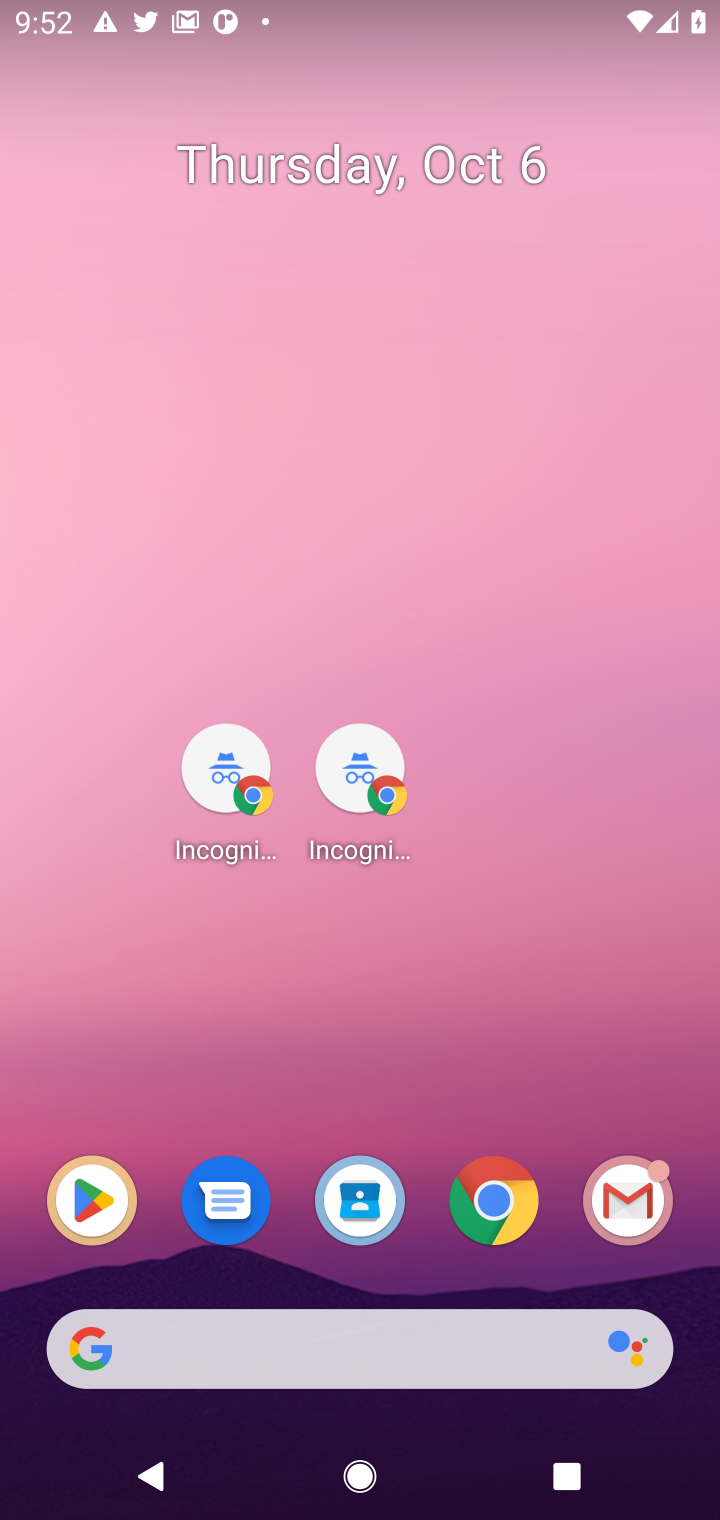
Step 31: click (492, 1190)
Your task to perform on an android device: Search for flights from Sydney to Buenos aires Image 32: 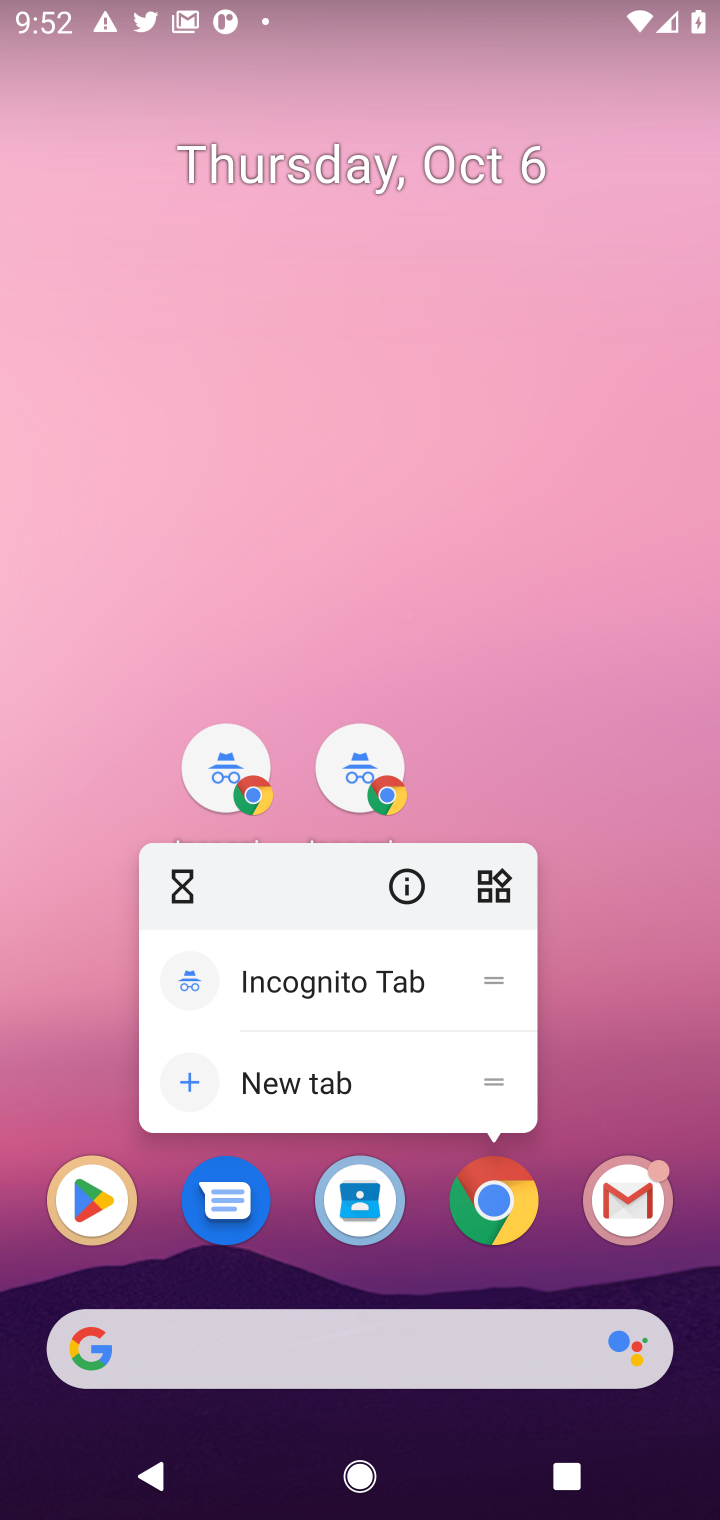
Step 32: press back button
Your task to perform on an android device: Search for flights from Sydney to Buenos aires Image 33: 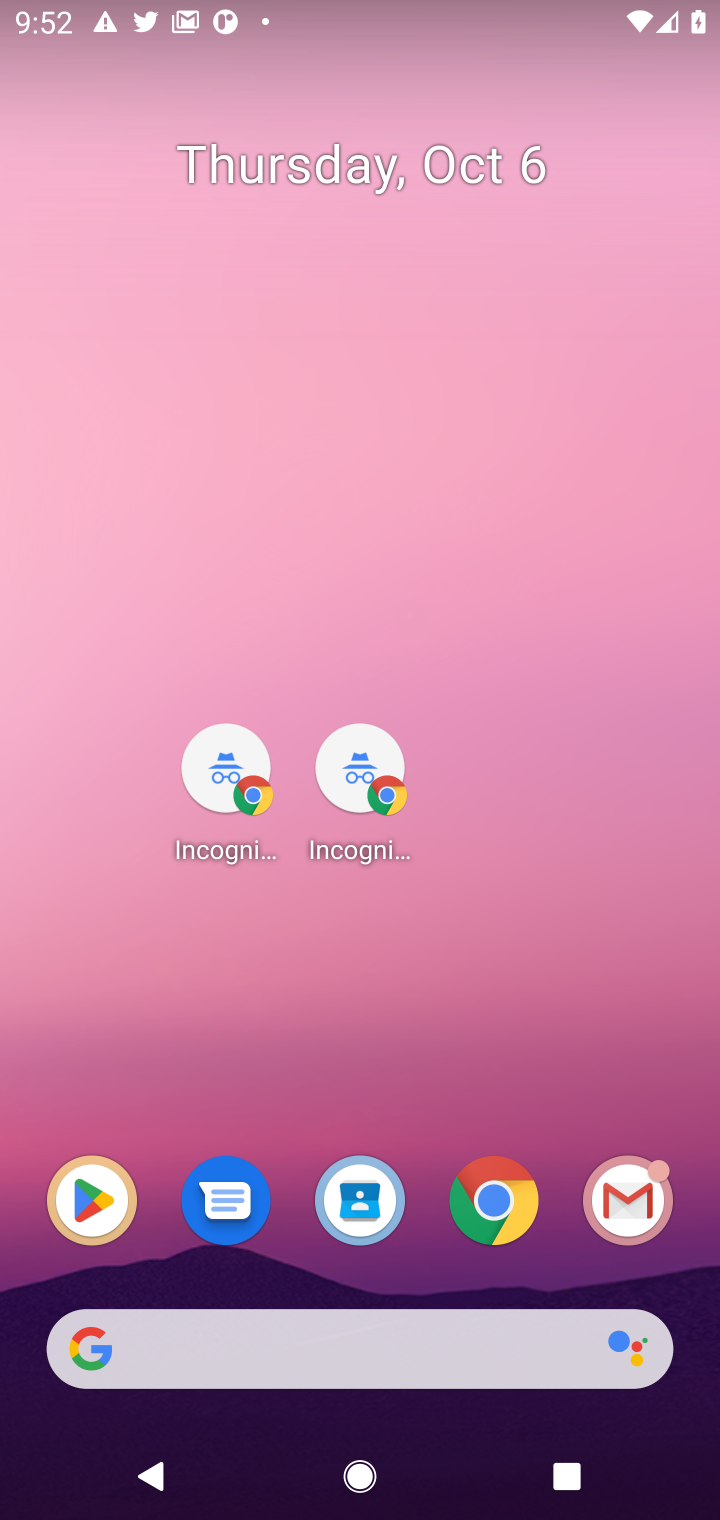
Step 33: press back button
Your task to perform on an android device: Search for flights from Sydney to Buenos aires Image 34: 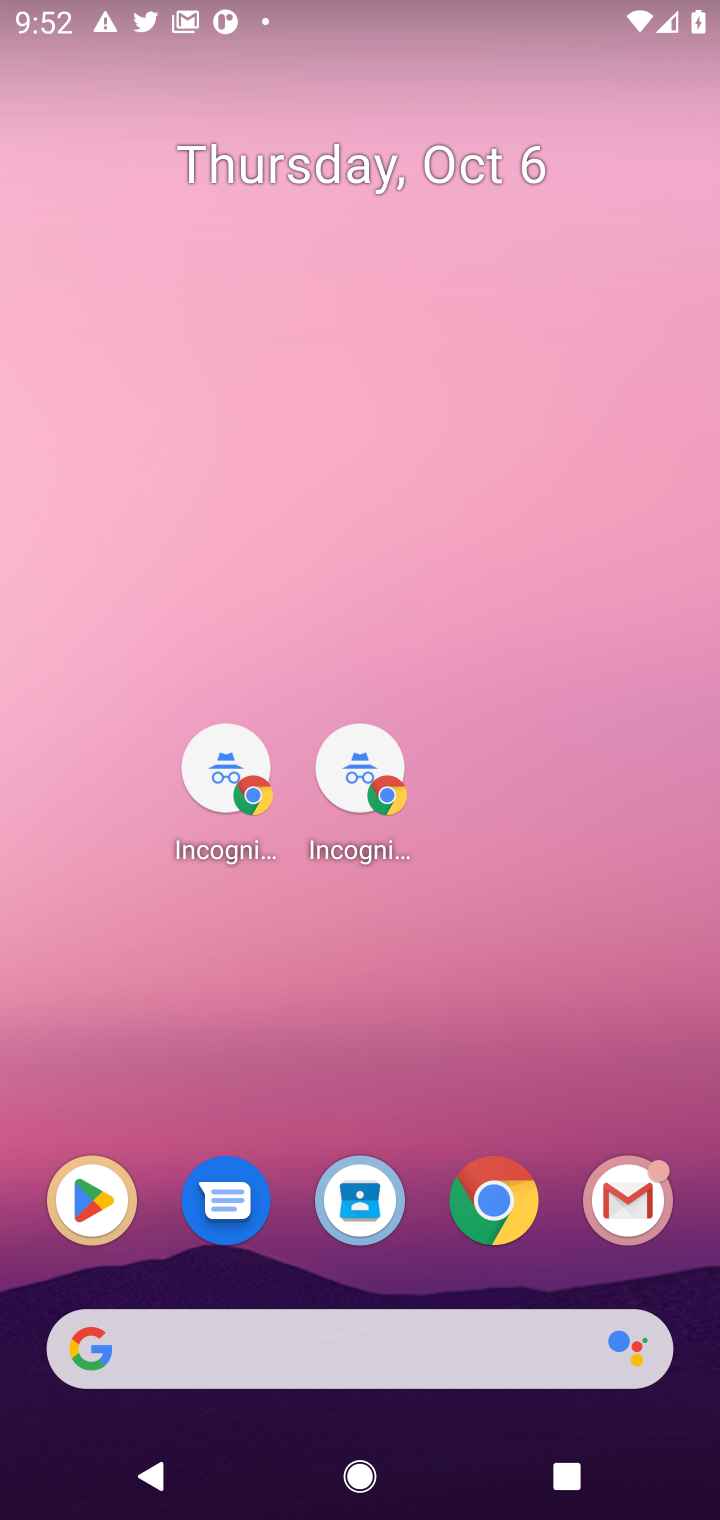
Step 34: press back button
Your task to perform on an android device: Search for flights from Sydney to Buenos aires Image 35: 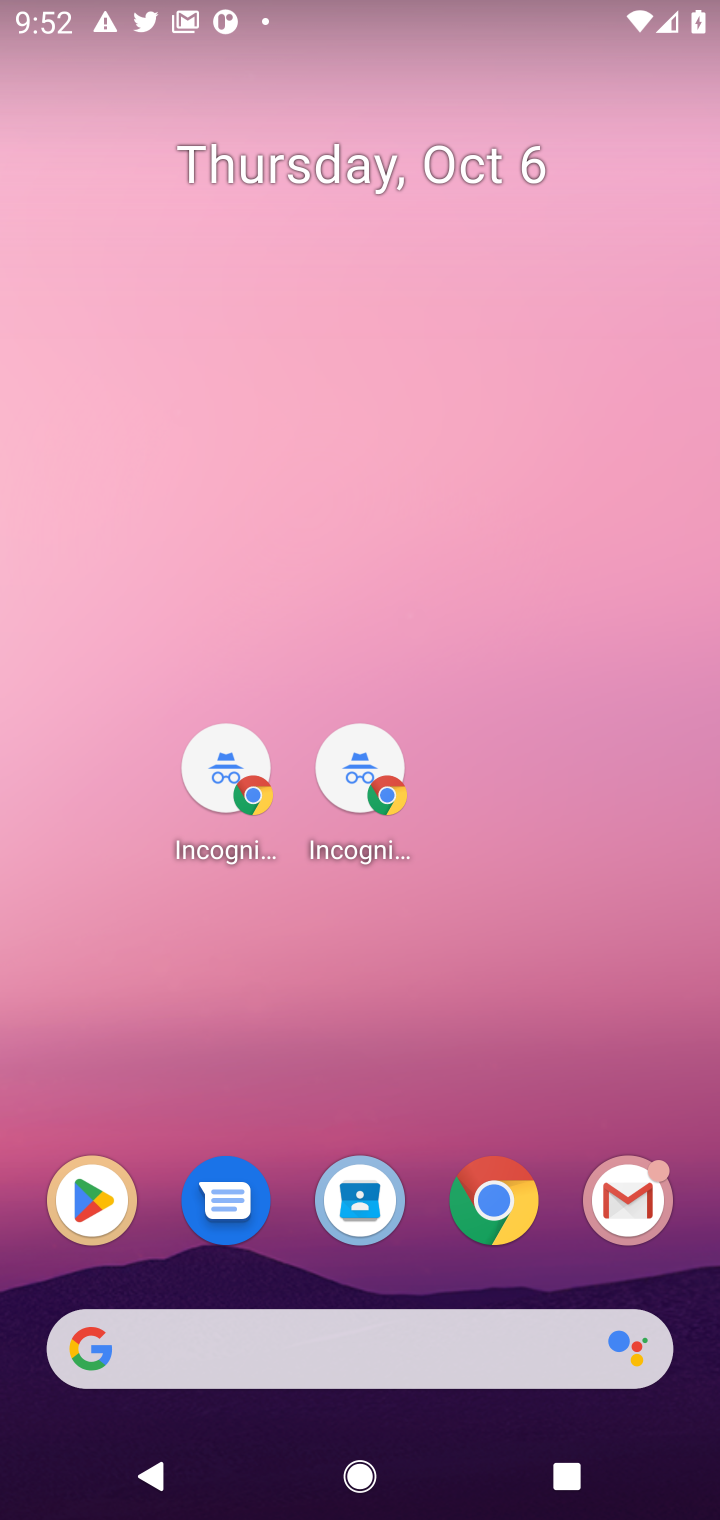
Step 35: press back button
Your task to perform on an android device: Search for flights from Sydney to Buenos aires Image 36: 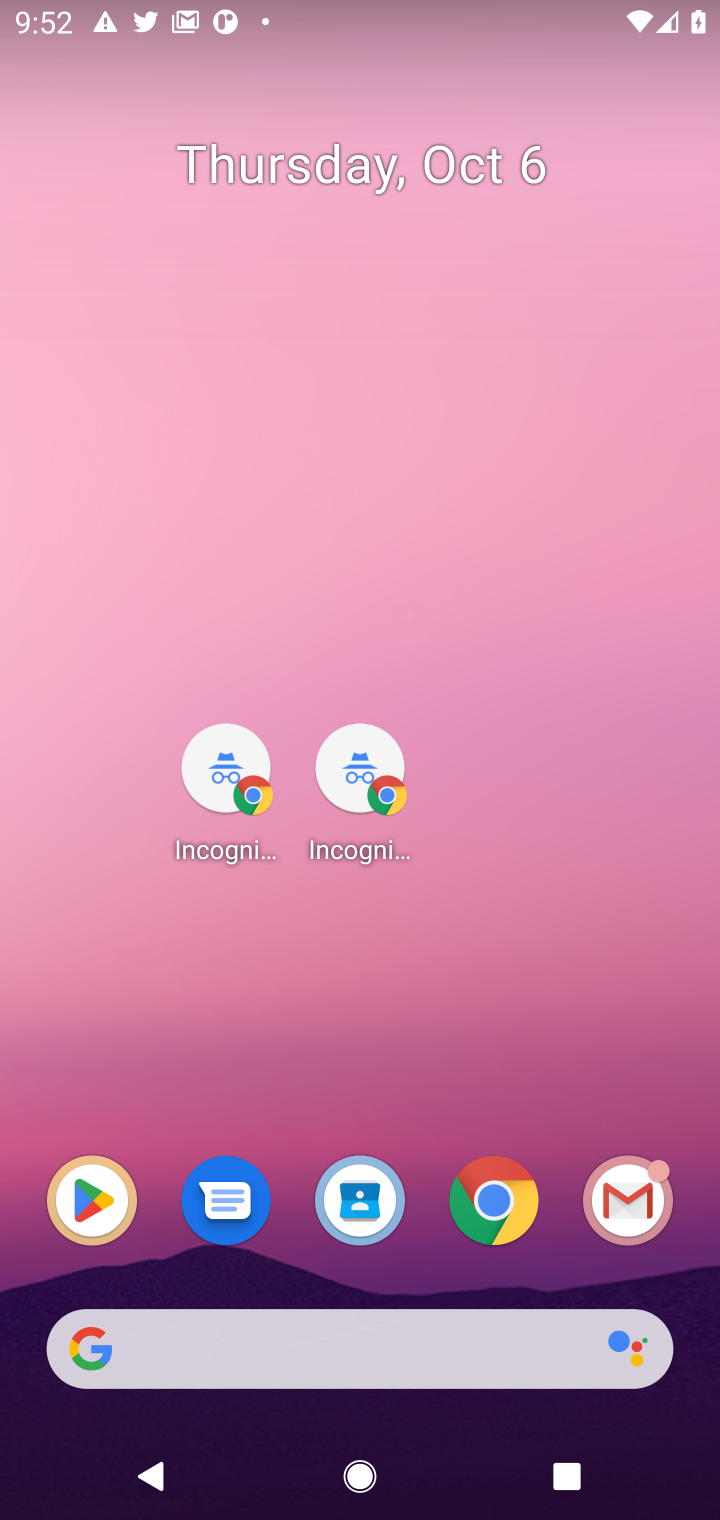
Step 36: click (508, 1221)
Your task to perform on an android device: Search for flights from Sydney to Buenos aires Image 37: 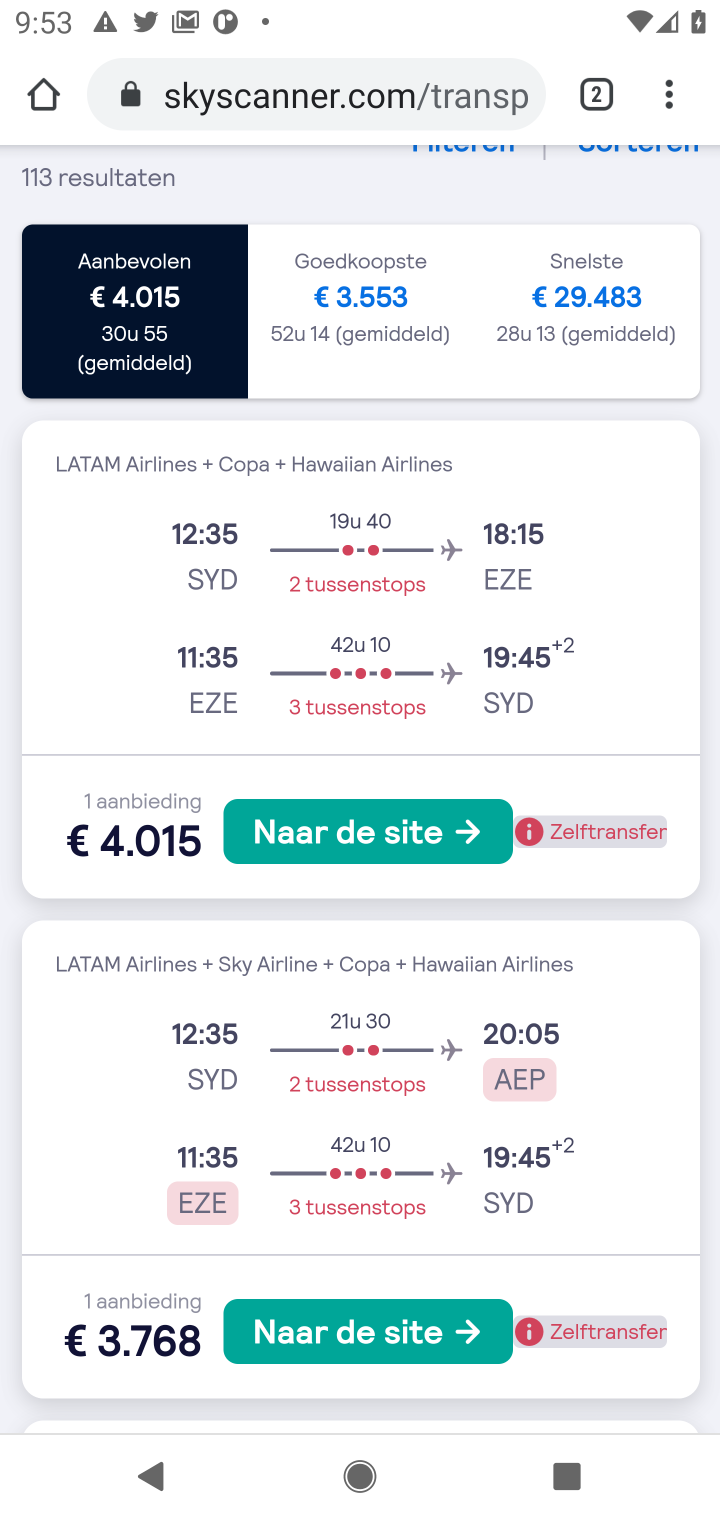
Step 37: click (448, 79)
Your task to perform on an android device: Search for flights from Sydney to Buenos aires Image 38: 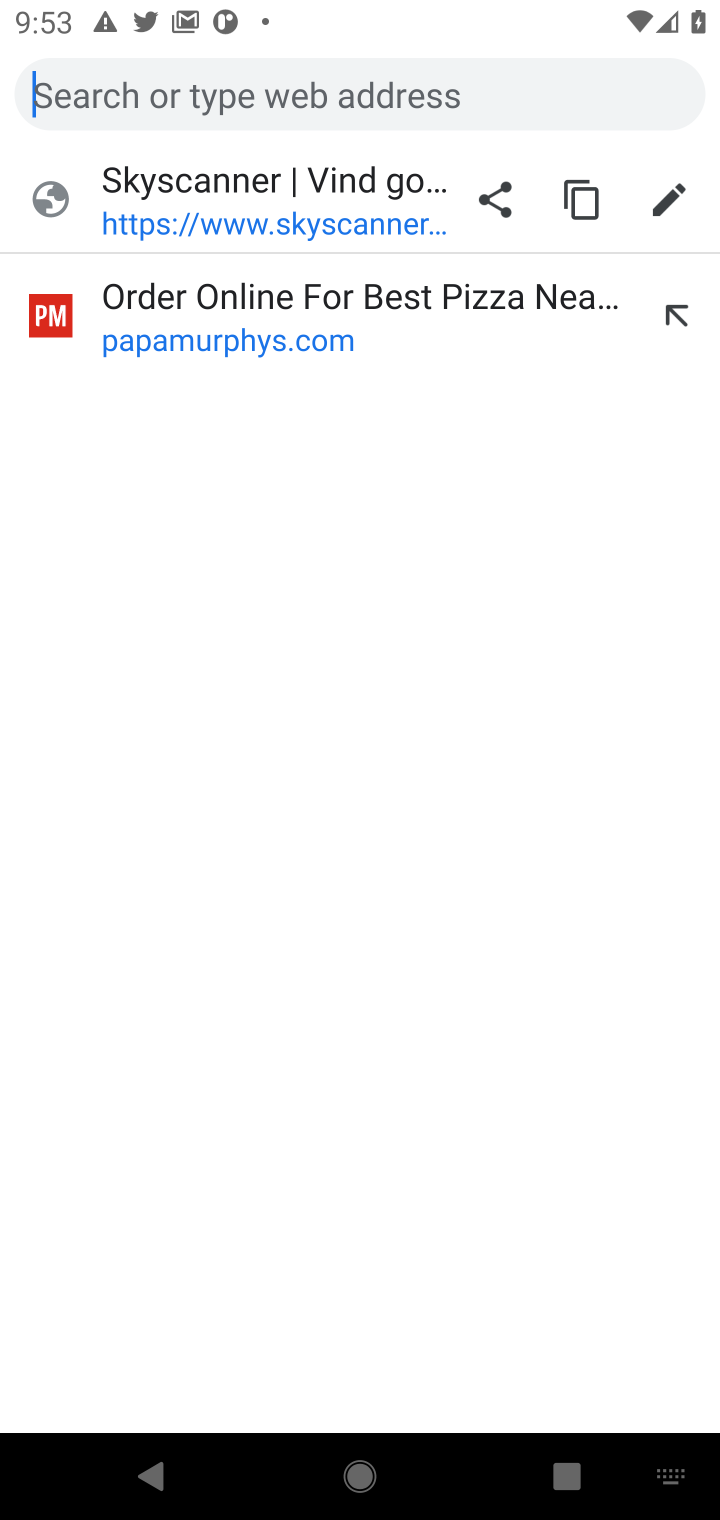
Step 38: type "flight from sydney to buenos aires"
Your task to perform on an android device: Search for flights from Sydney to Buenos aires Image 39: 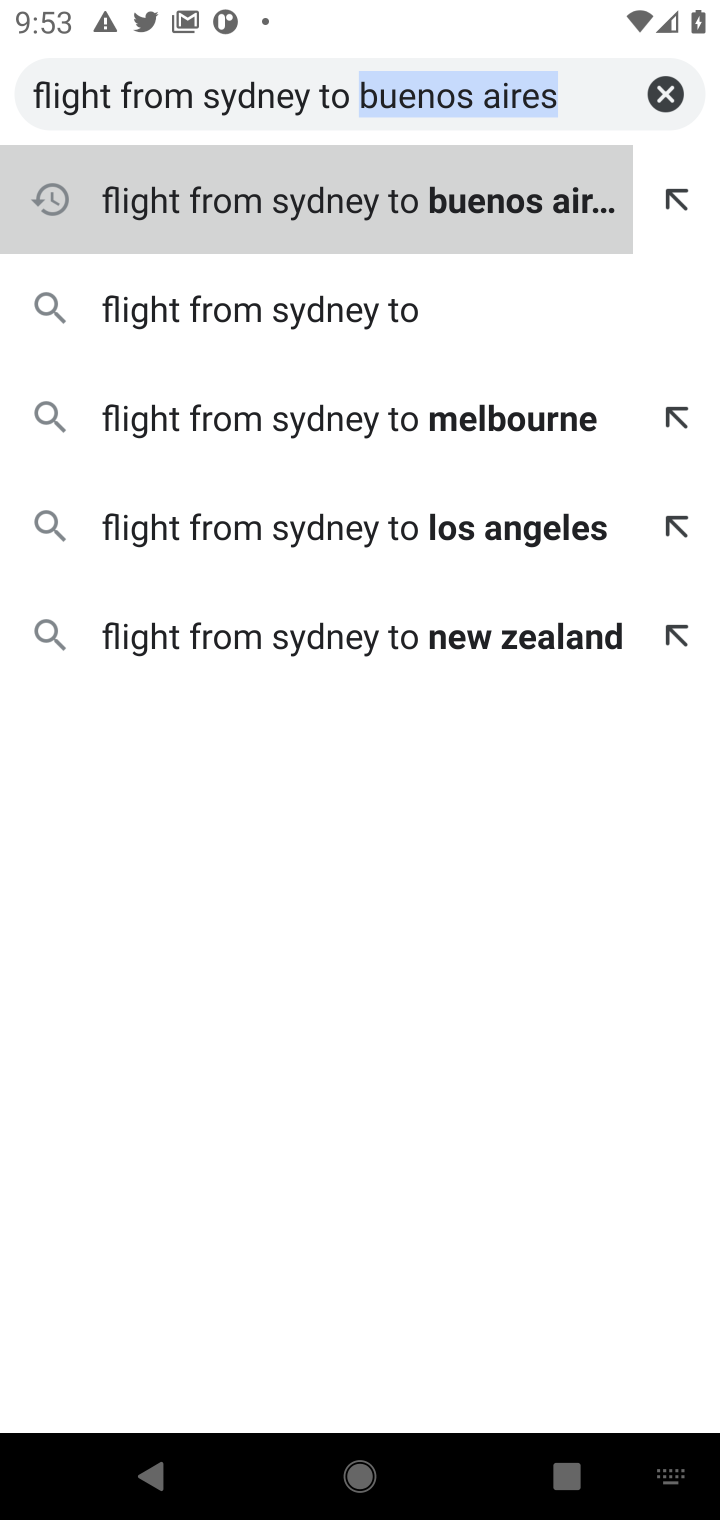
Step 39: click (270, 214)
Your task to perform on an android device: Search for flights from Sydney to Buenos aires Image 40: 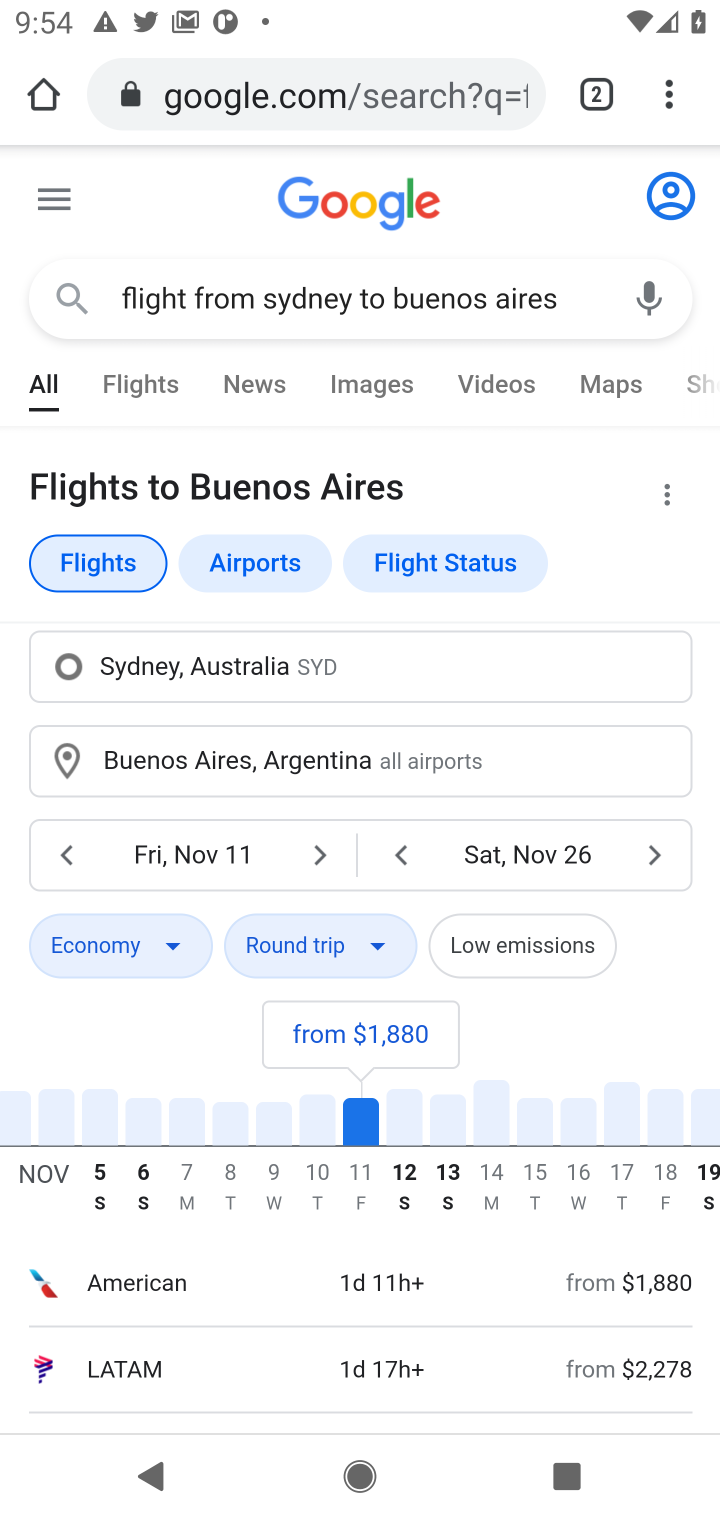
Step 40: click (64, 867)
Your task to perform on an android device: Search for flights from Sydney to Buenos aires Image 41: 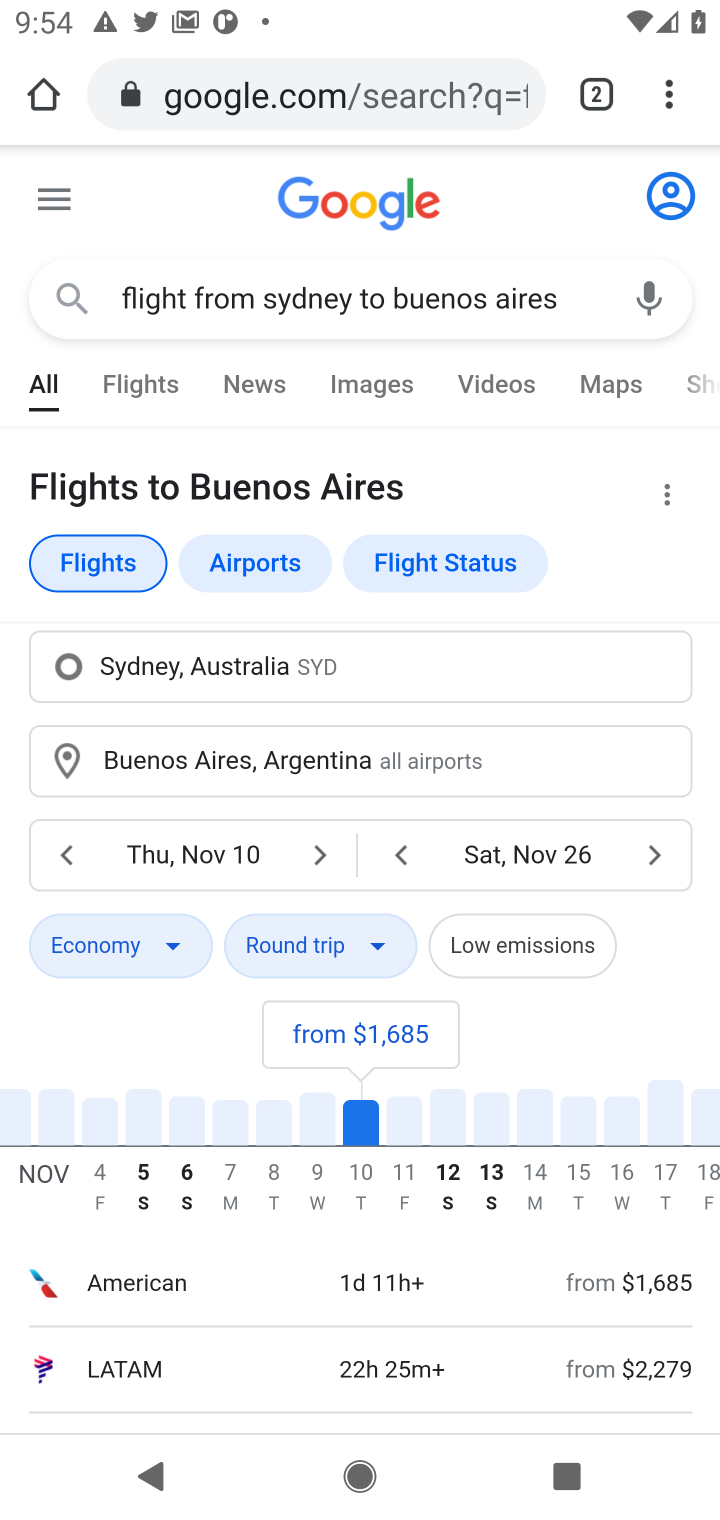
Step 41: click (396, 852)
Your task to perform on an android device: Search for flights from Sydney to Buenos aires Image 42: 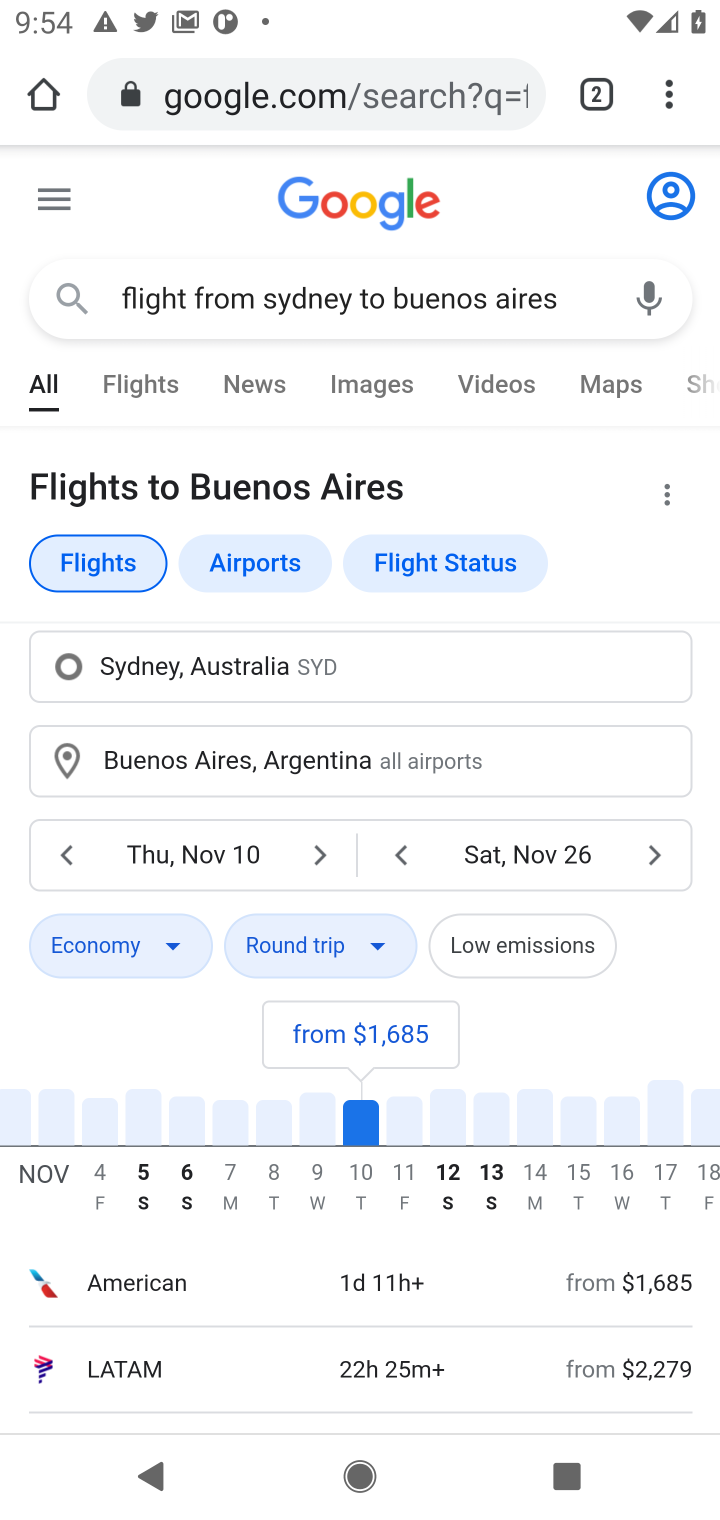
Step 42: click (396, 852)
Your task to perform on an android device: Search for flights from Sydney to Buenos aires Image 43: 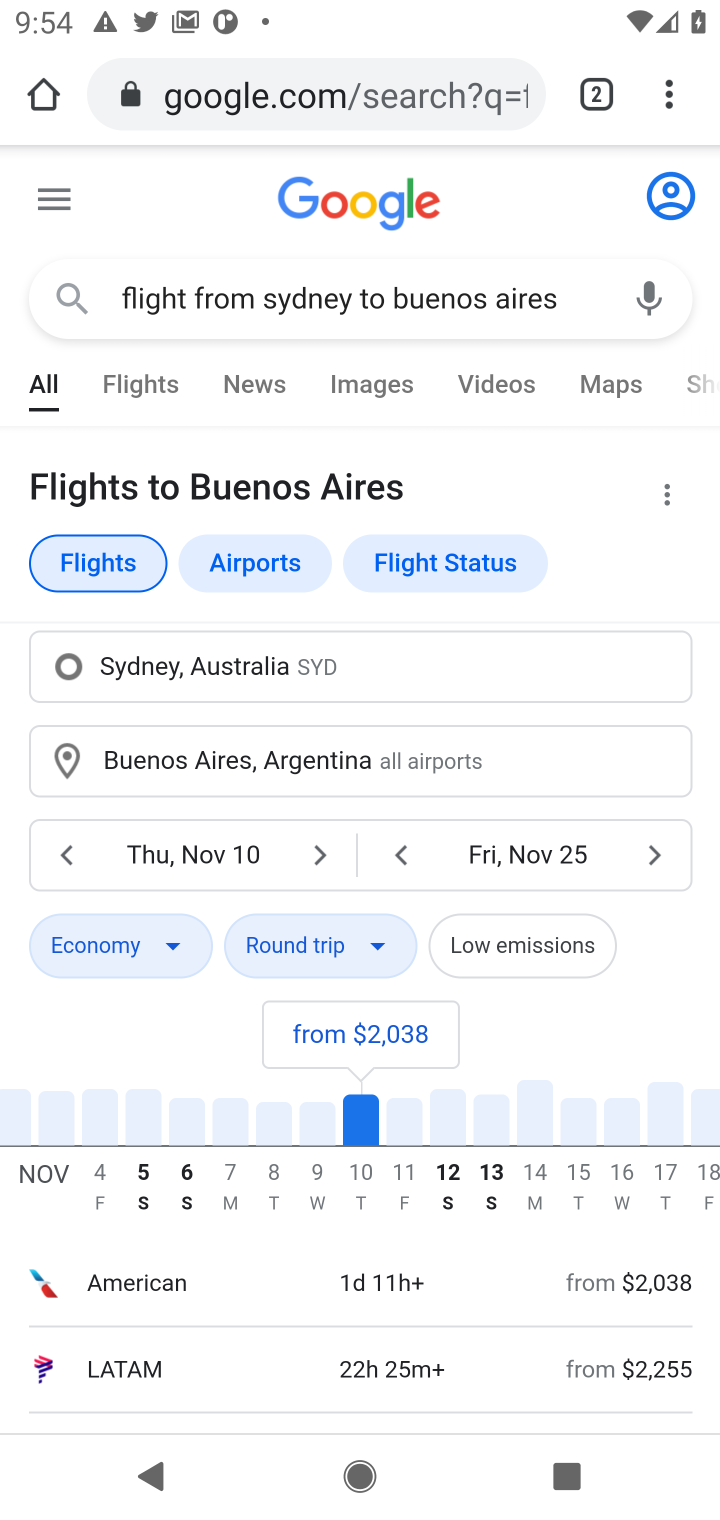
Step 43: click (405, 854)
Your task to perform on an android device: Search for flights from Sydney to Buenos aires Image 44: 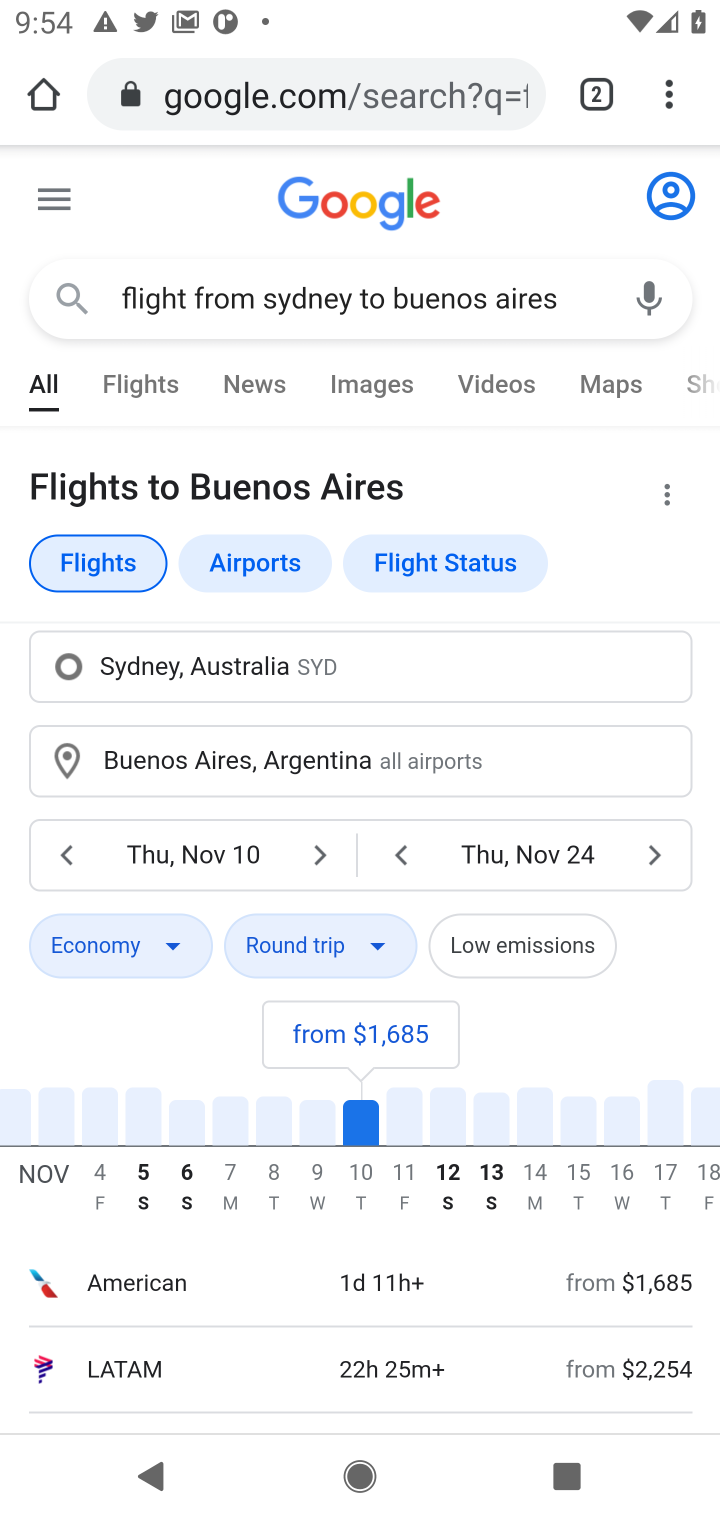
Step 44: click (405, 854)
Your task to perform on an android device: Search for flights from Sydney to Buenos aires Image 45: 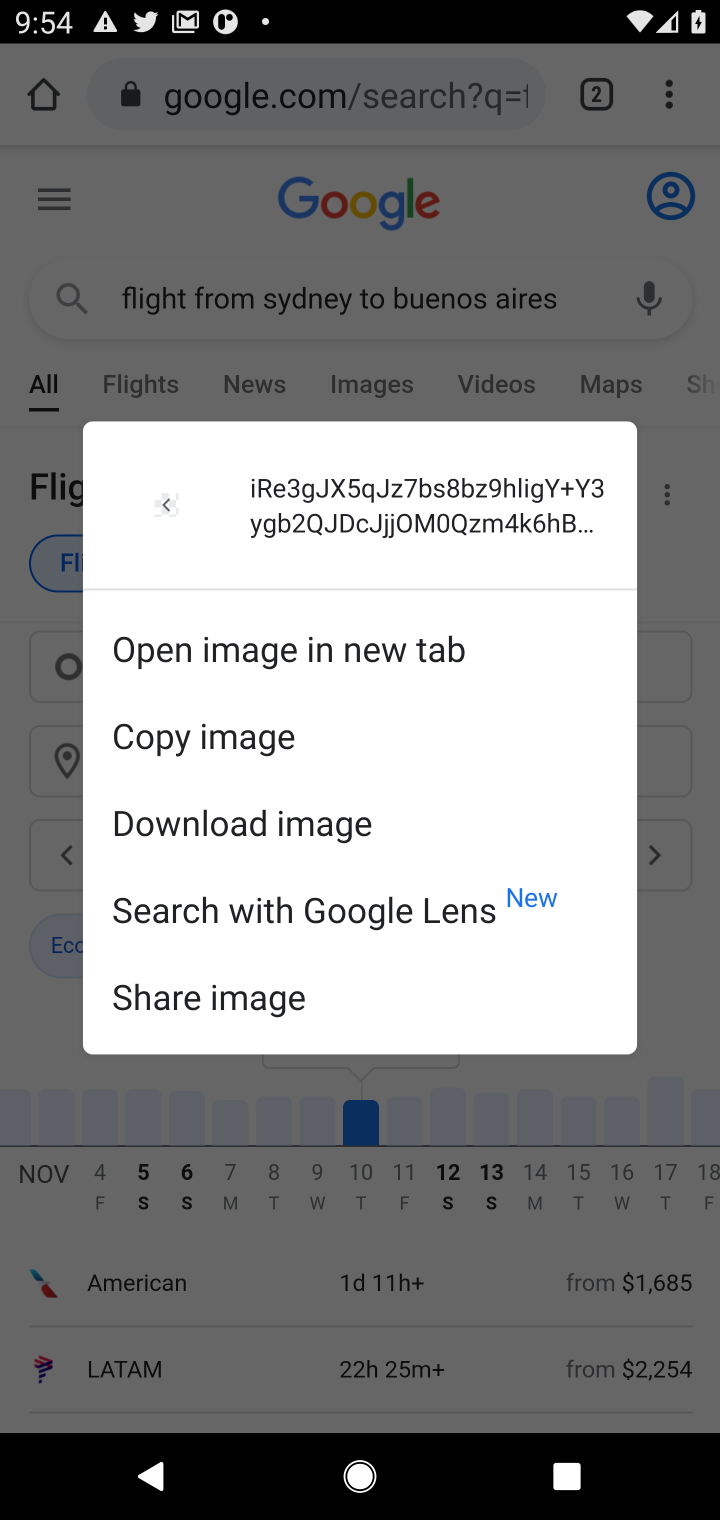
Step 45: click (169, 514)
Your task to perform on an android device: Search for flights from Sydney to Buenos aires Image 46: 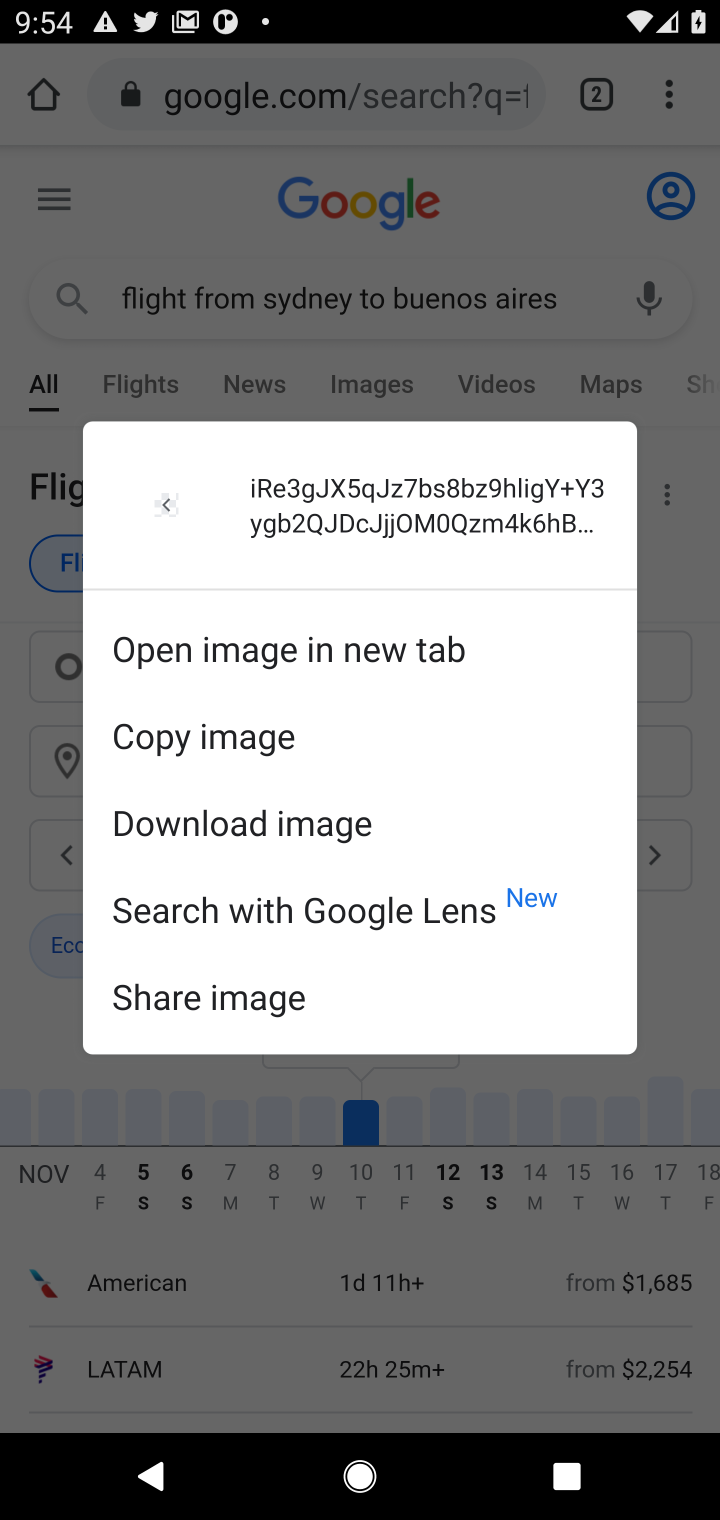
Step 46: click (696, 883)
Your task to perform on an android device: Search for flights from Sydney to Buenos aires Image 47: 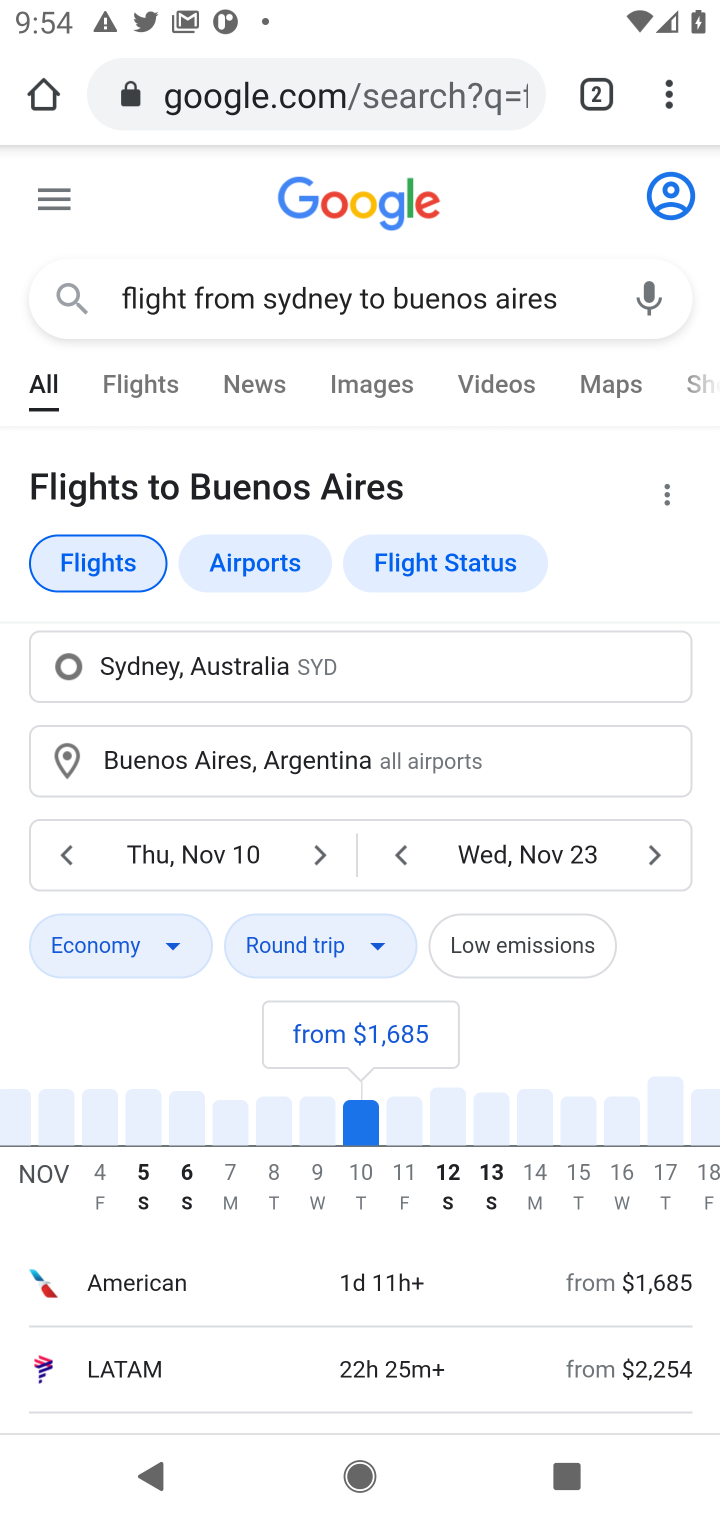
Step 47: click (124, 946)
Your task to perform on an android device: Search for flights from Sydney to Buenos aires Image 48: 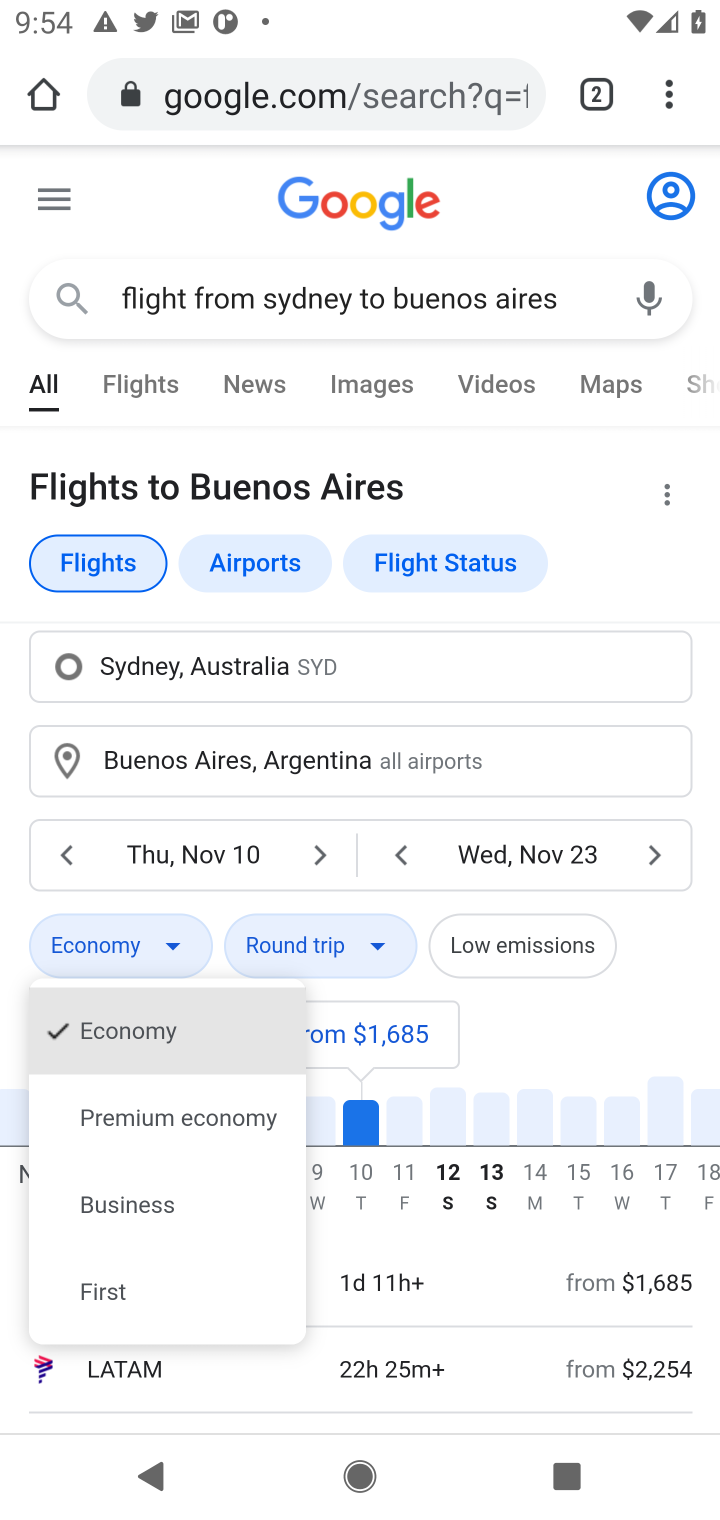
Step 48: click (180, 1024)
Your task to perform on an android device: Search for flights from Sydney to Buenos aires Image 49: 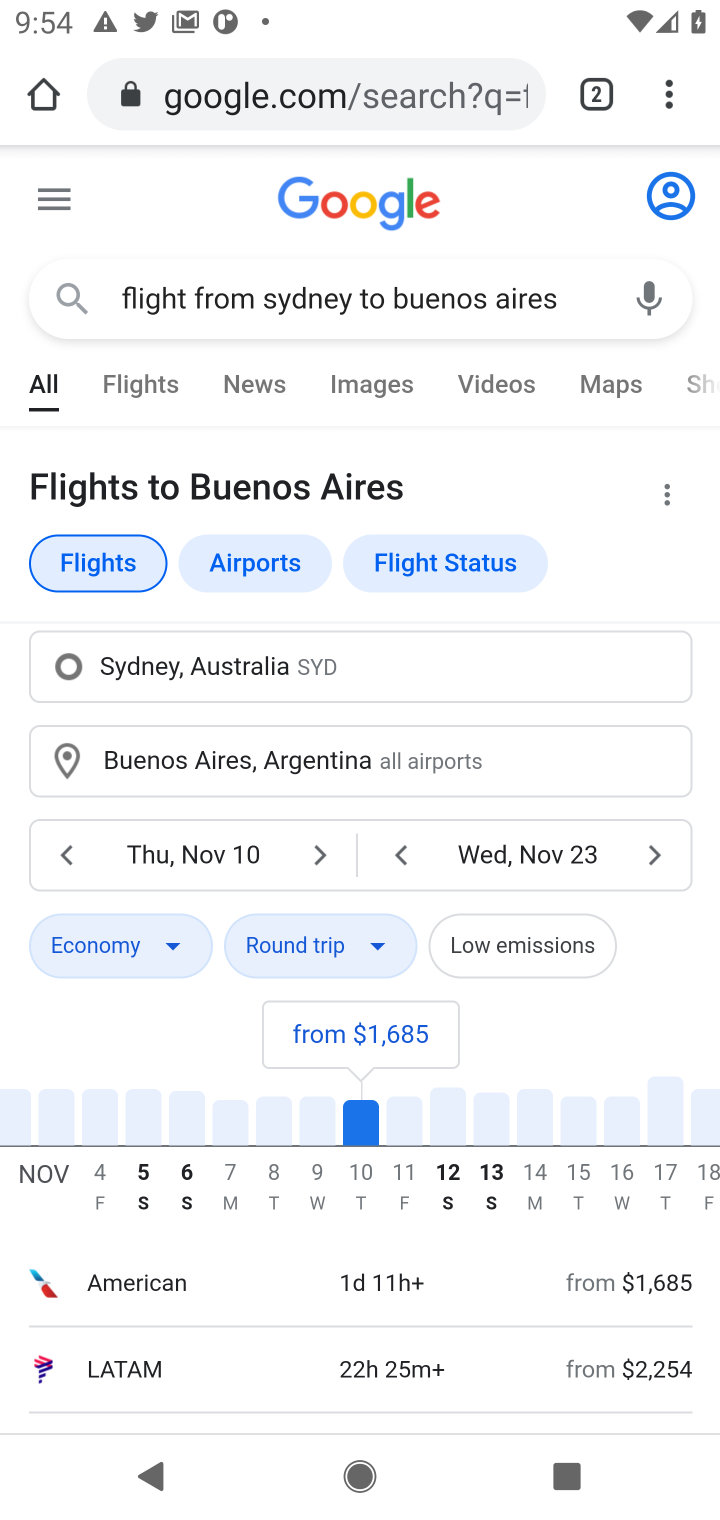
Step 49: click (67, 953)
Your task to perform on an android device: Search for flights from Sydney to Buenos aires Image 50: 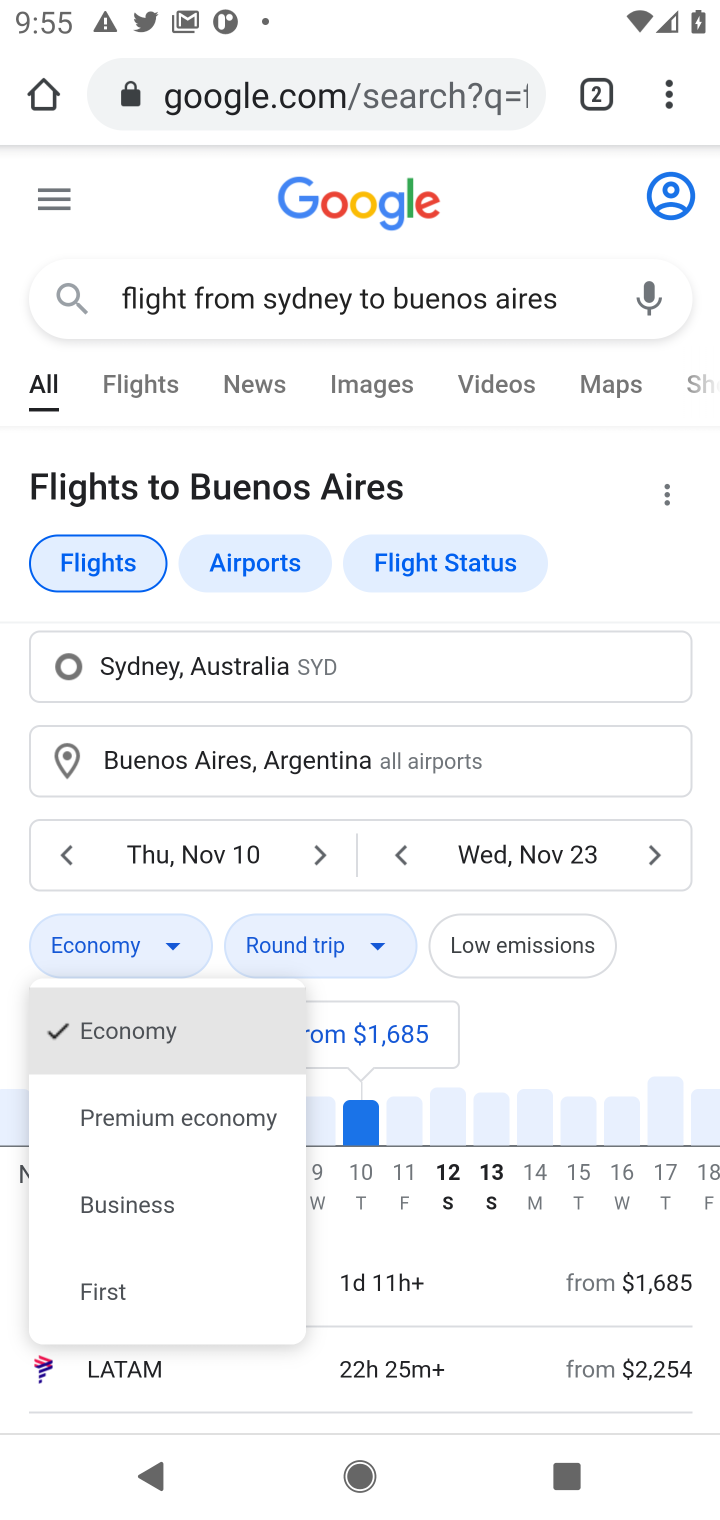
Step 50: click (126, 1037)
Your task to perform on an android device: Search for flights from Sydney to Buenos aires Image 51: 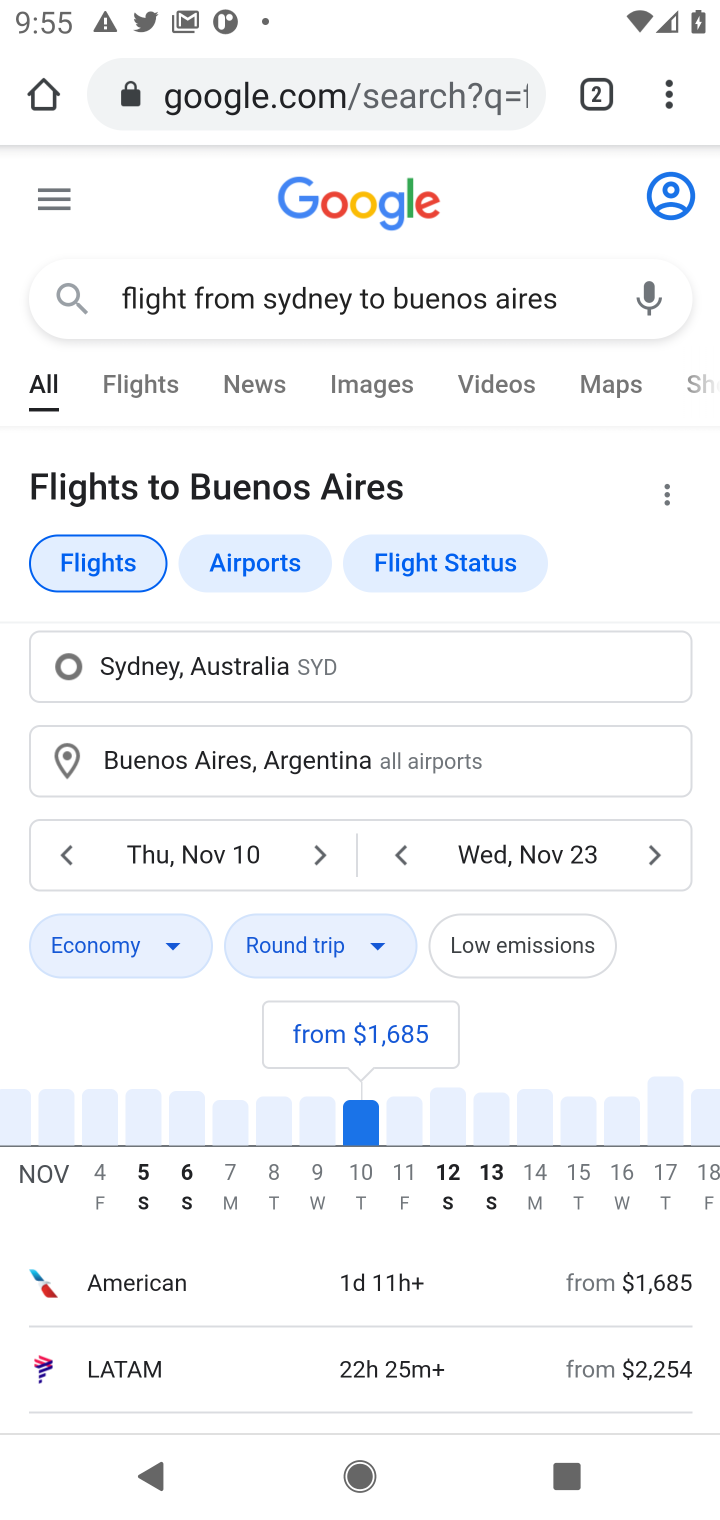
Step 51: click (98, 950)
Your task to perform on an android device: Search for flights from Sydney to Buenos aires Image 52: 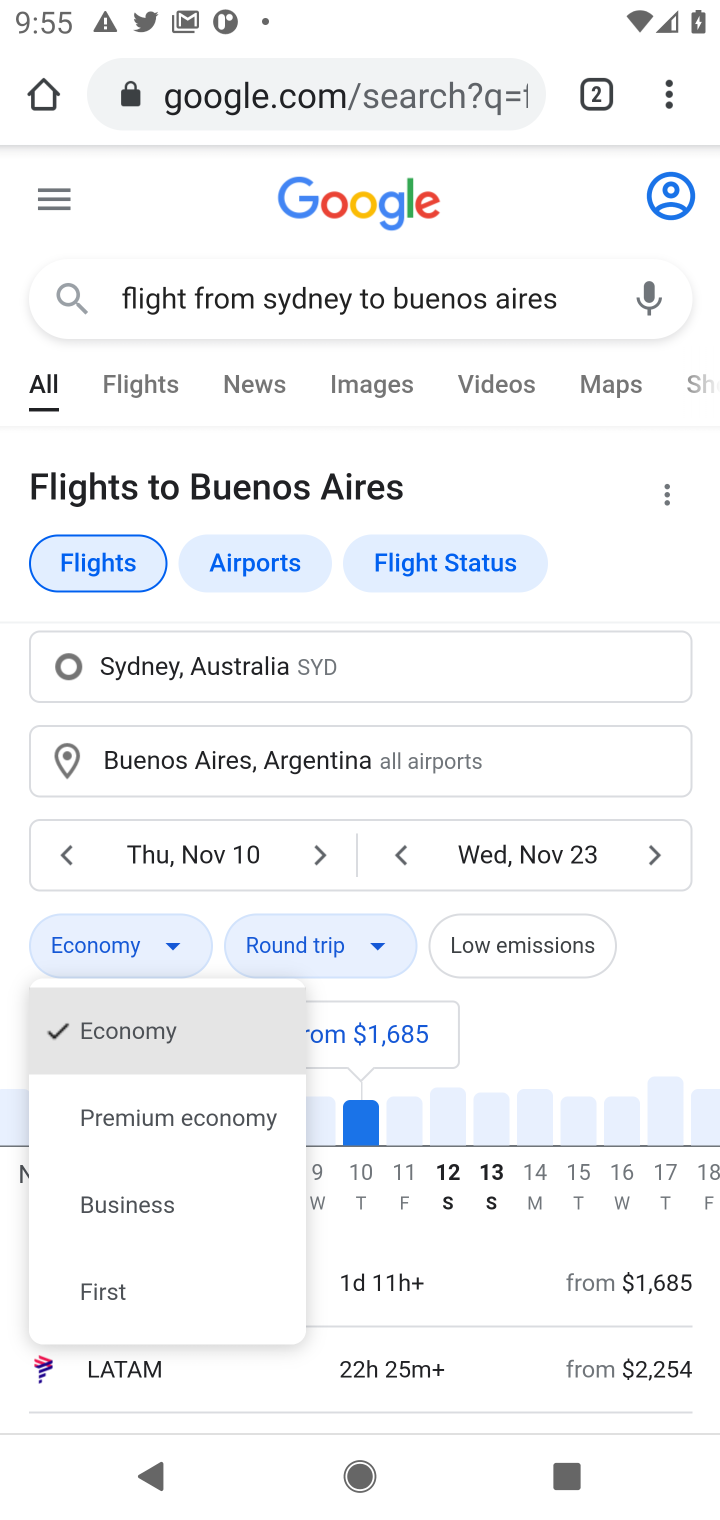
Step 52: drag from (584, 1076) to (582, 438)
Your task to perform on an android device: Search for flights from Sydney to Buenos aires Image 53: 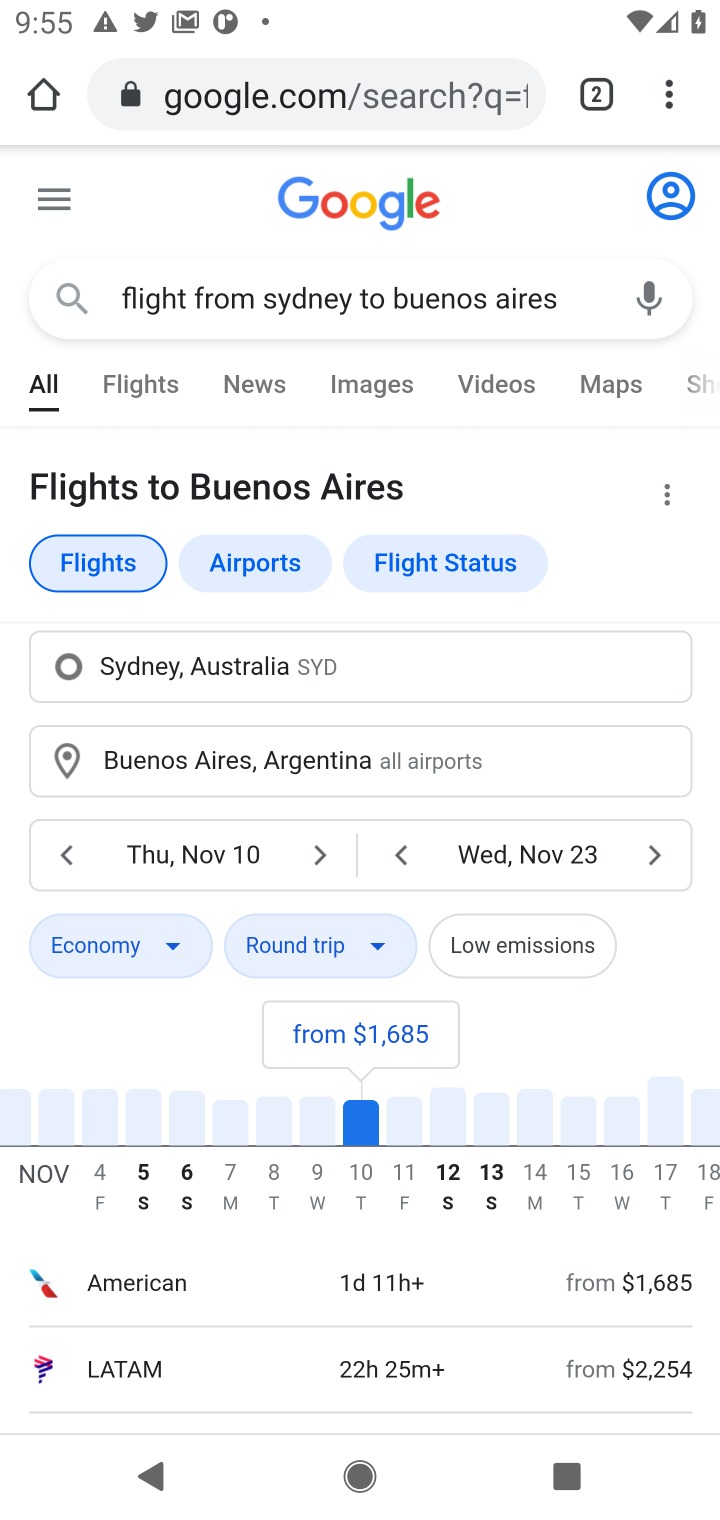
Step 53: drag from (280, 1177) to (337, 539)
Your task to perform on an android device: Search for flights from Sydney to Buenos aires Image 54: 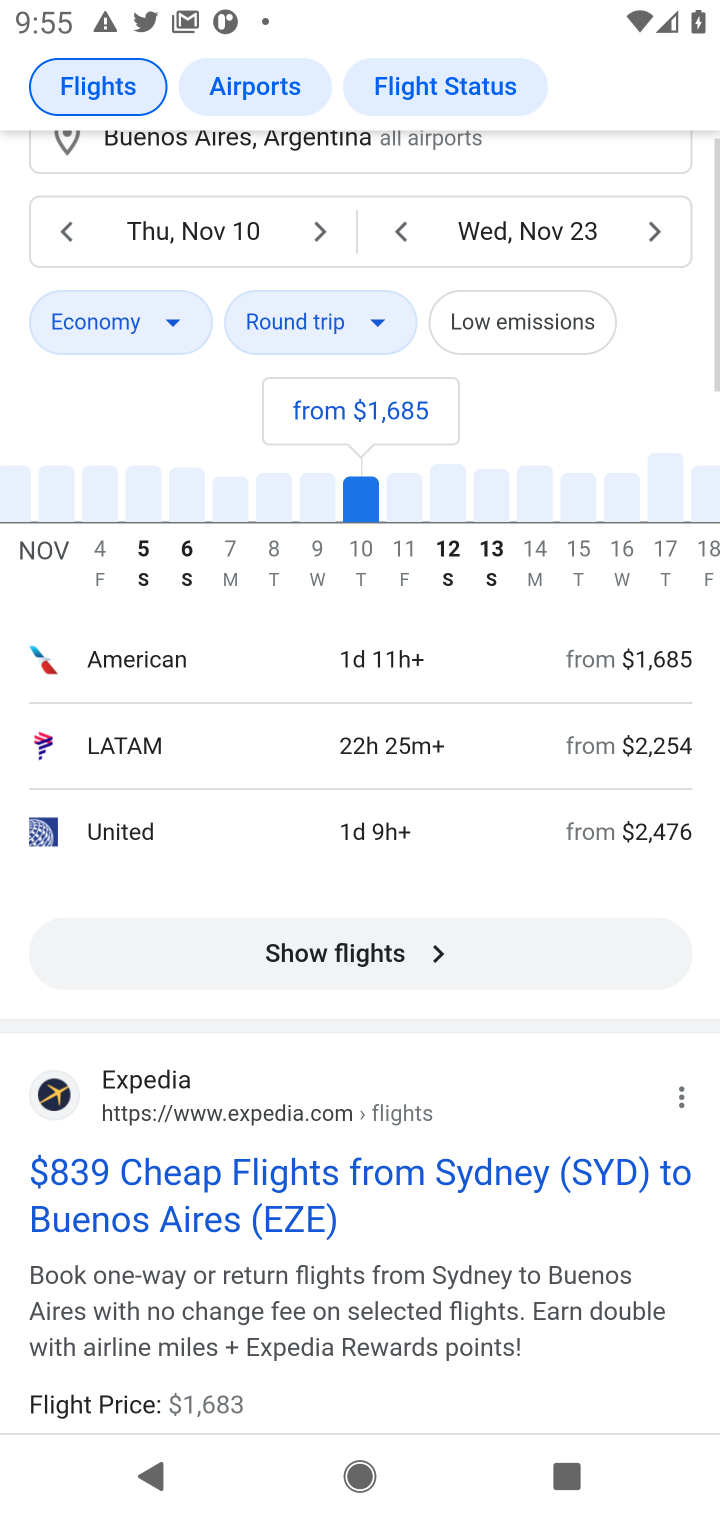
Step 54: drag from (136, 1332) to (214, 781)
Your task to perform on an android device: Search for flights from Sydney to Buenos aires Image 55: 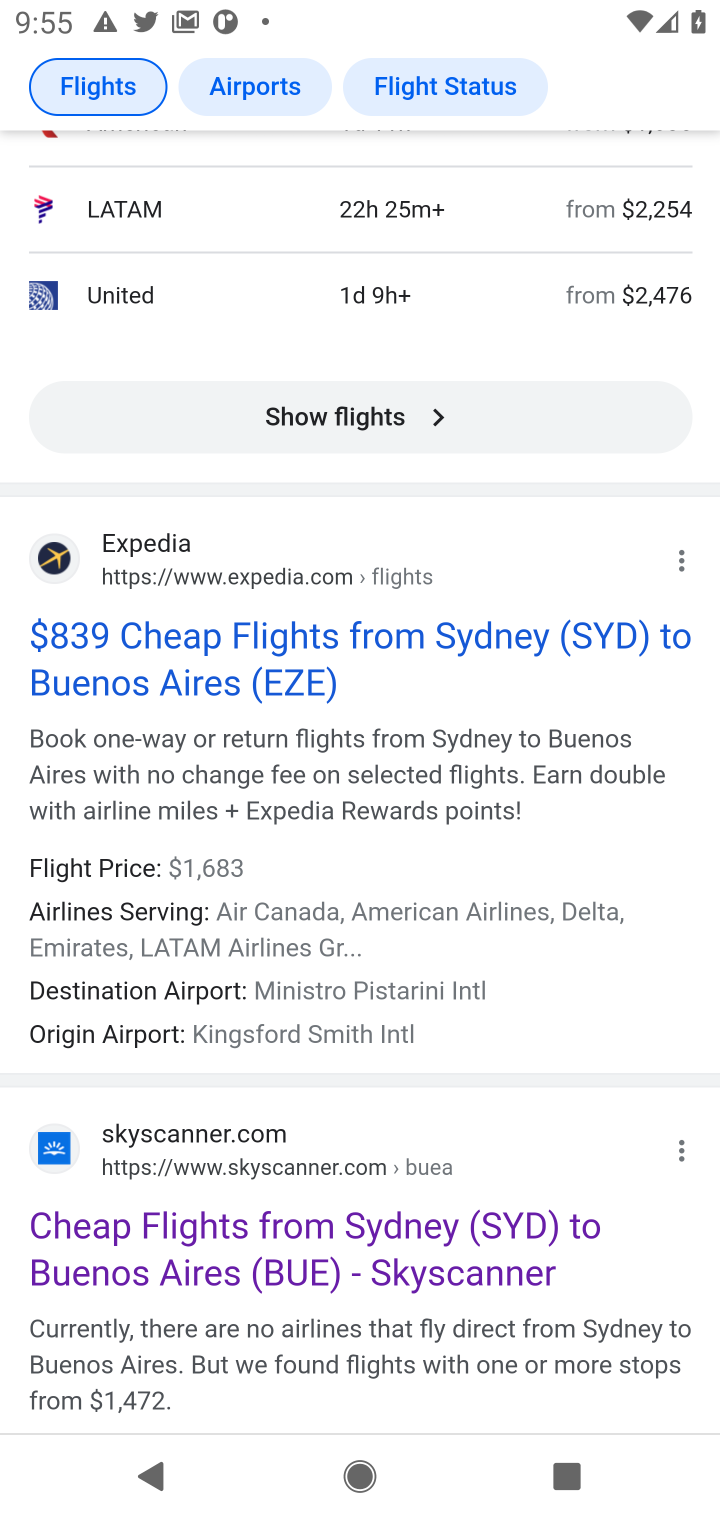
Step 55: click (111, 211)
Your task to perform on an android device: Search for flights from Sydney to Buenos aires Image 56: 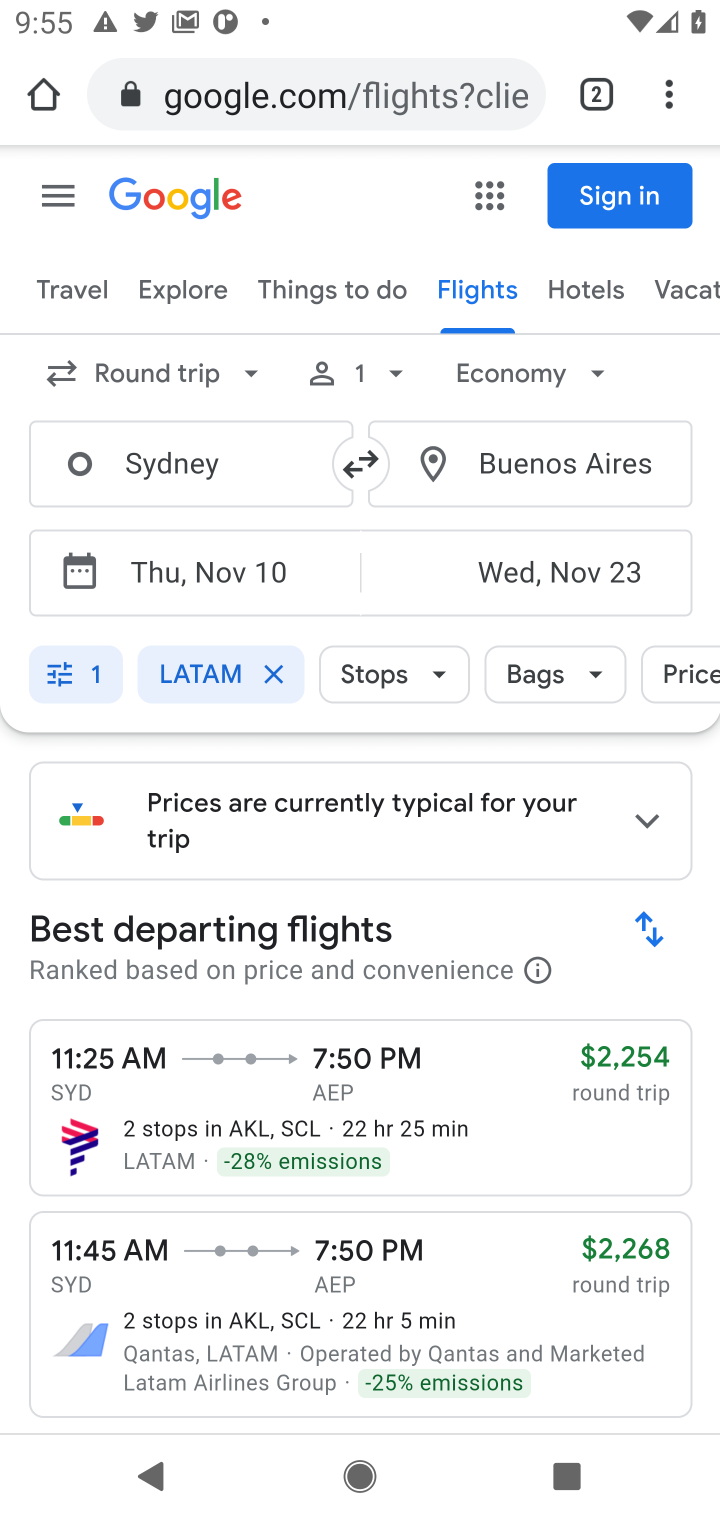
Step 56: task complete